Your task to perform on an android device: Clear all items from cart on walmart.com. Add "bose quietcomfort 35" to the cart on walmart.com Image 0: 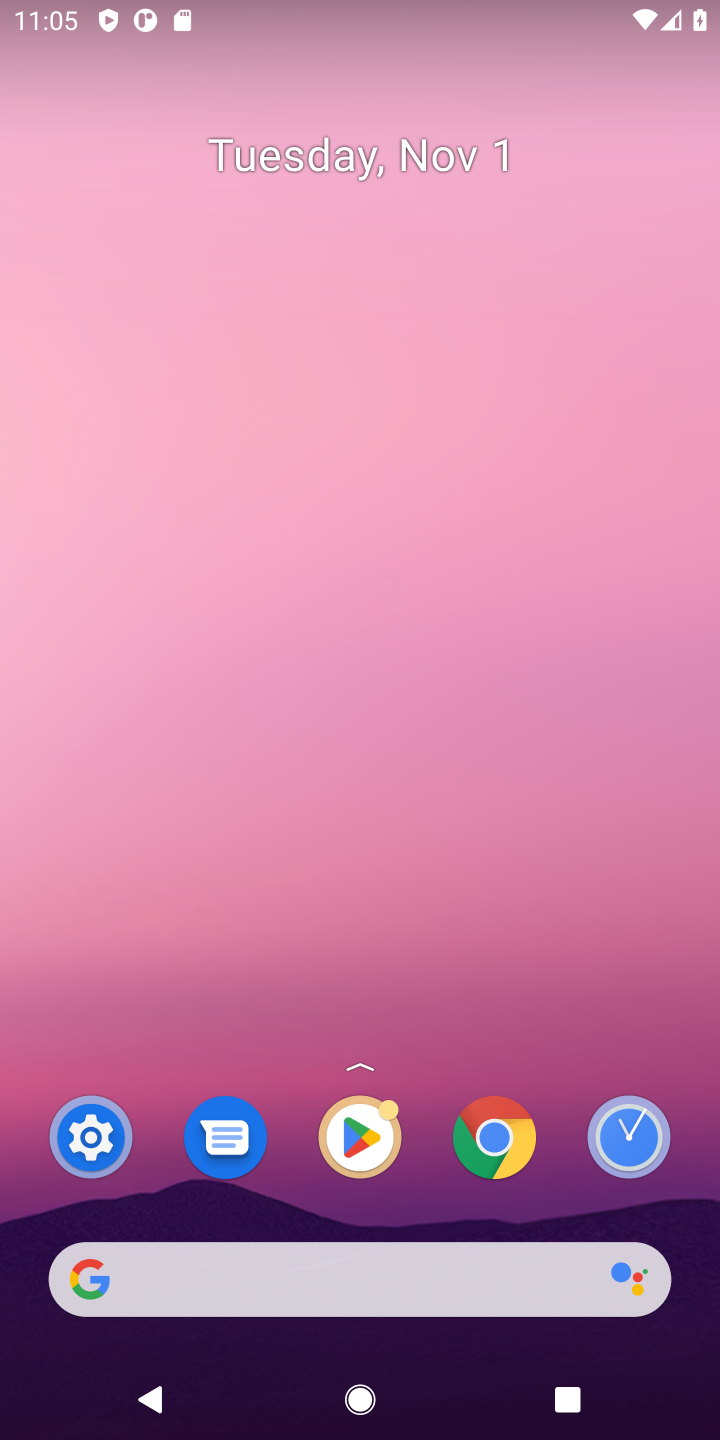
Step 0: click (176, 1259)
Your task to perform on an android device: Clear all items from cart on walmart.com. Add "bose quietcomfort 35" to the cart on walmart.com Image 1: 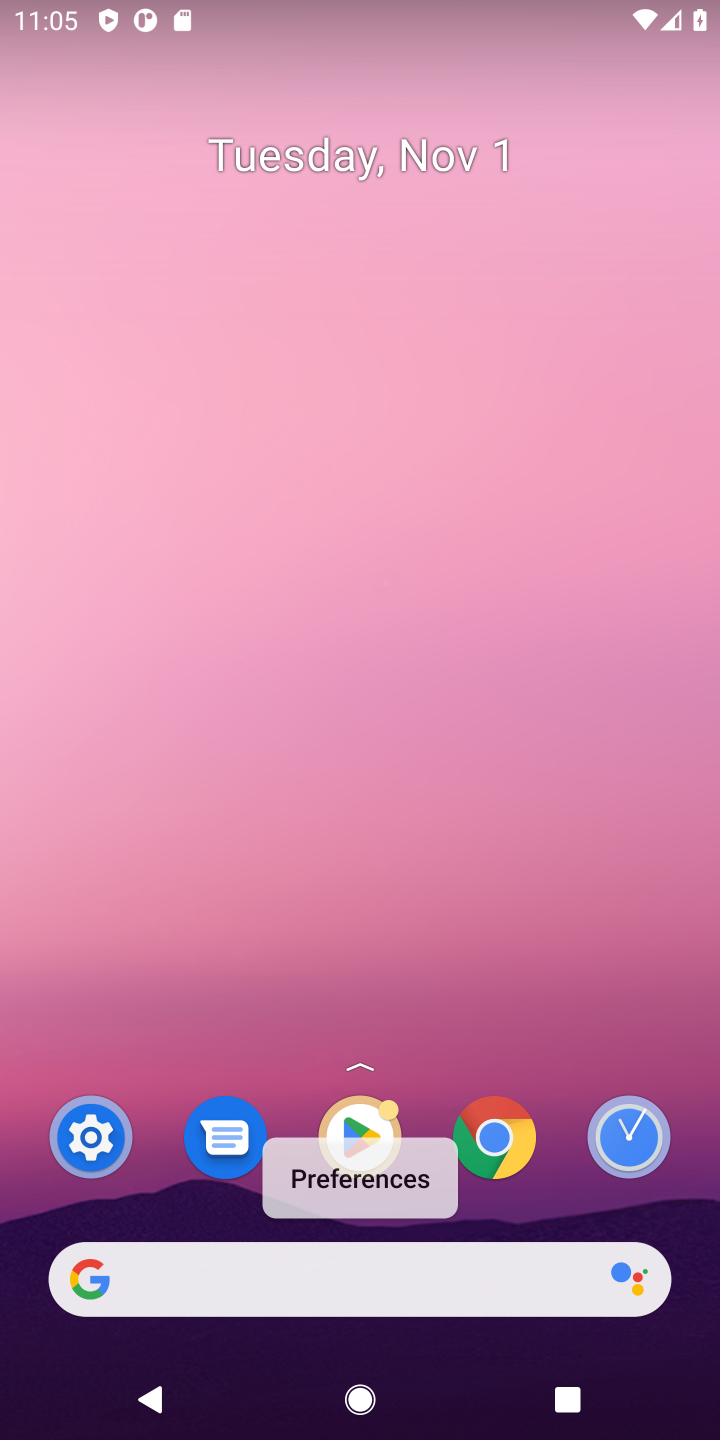
Step 1: click (183, 1259)
Your task to perform on an android device: Clear all items from cart on walmart.com. Add "bose quietcomfort 35" to the cart on walmart.com Image 2: 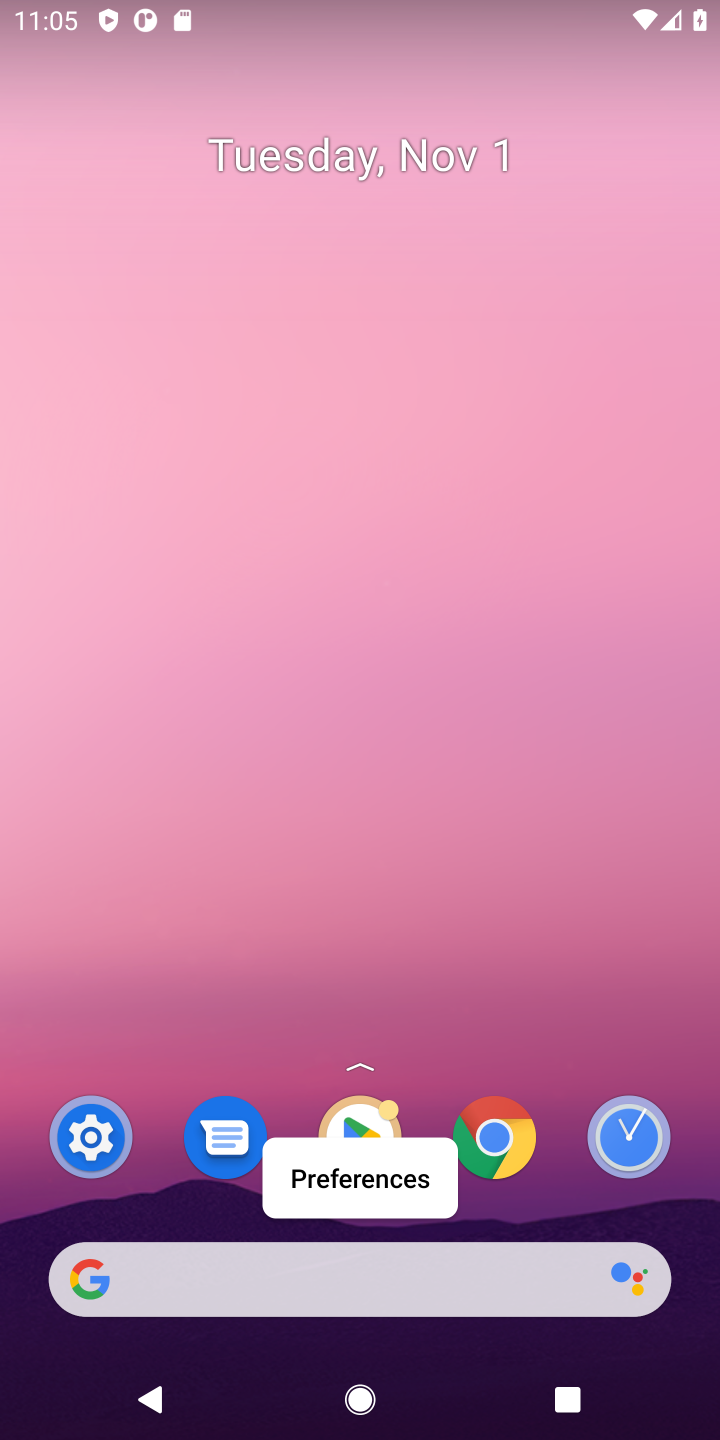
Step 2: click (185, 1257)
Your task to perform on an android device: Clear all items from cart on walmart.com. Add "bose quietcomfort 35" to the cart on walmart.com Image 3: 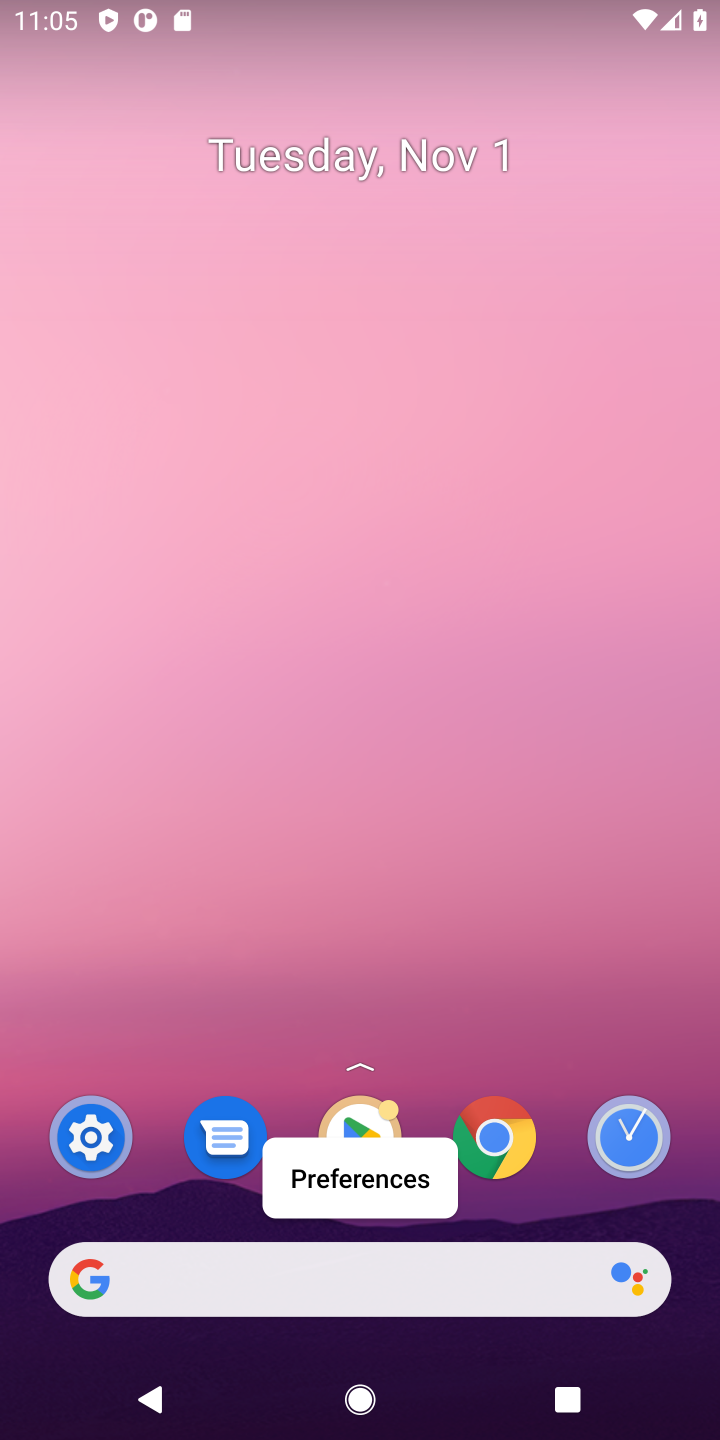
Step 3: click (192, 1272)
Your task to perform on an android device: Clear all items from cart on walmart.com. Add "bose quietcomfort 35" to the cart on walmart.com Image 4: 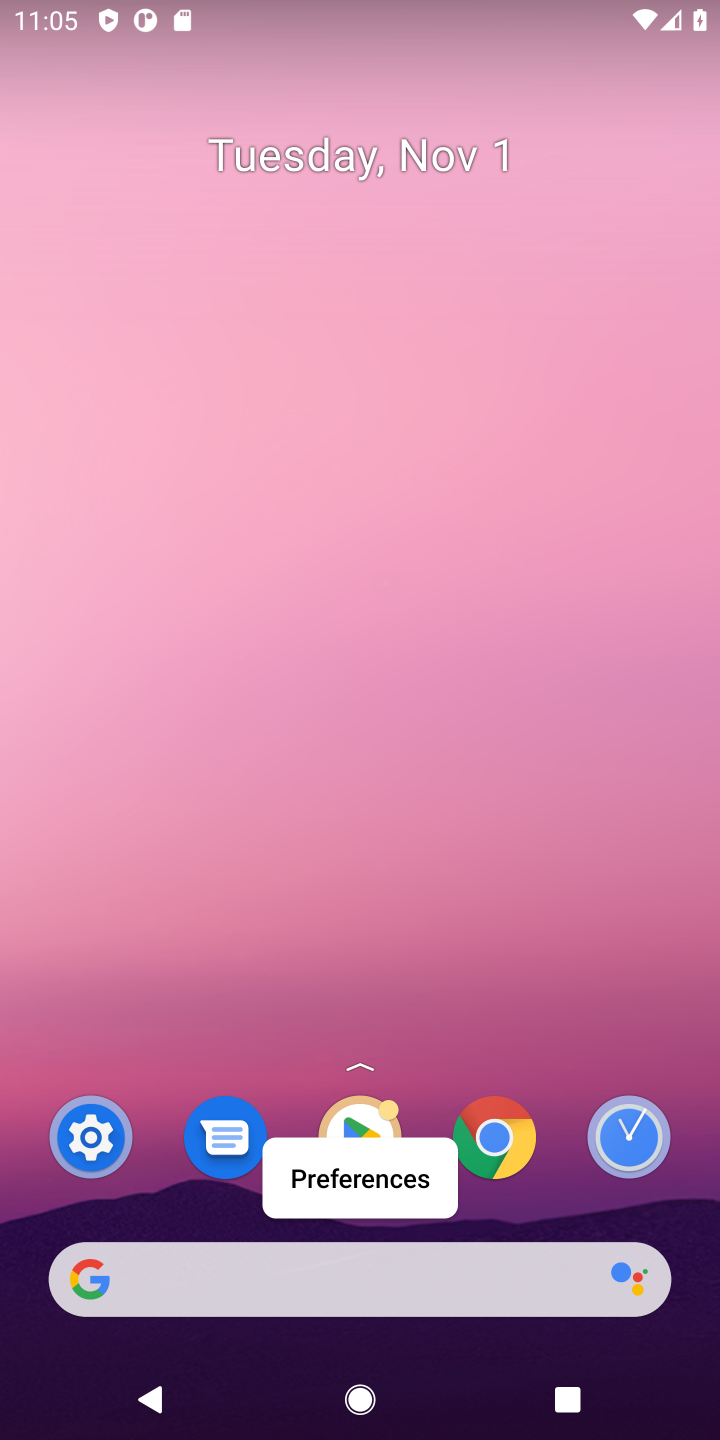
Step 4: click (194, 1270)
Your task to perform on an android device: Clear all items from cart on walmart.com. Add "bose quietcomfort 35" to the cart on walmart.com Image 5: 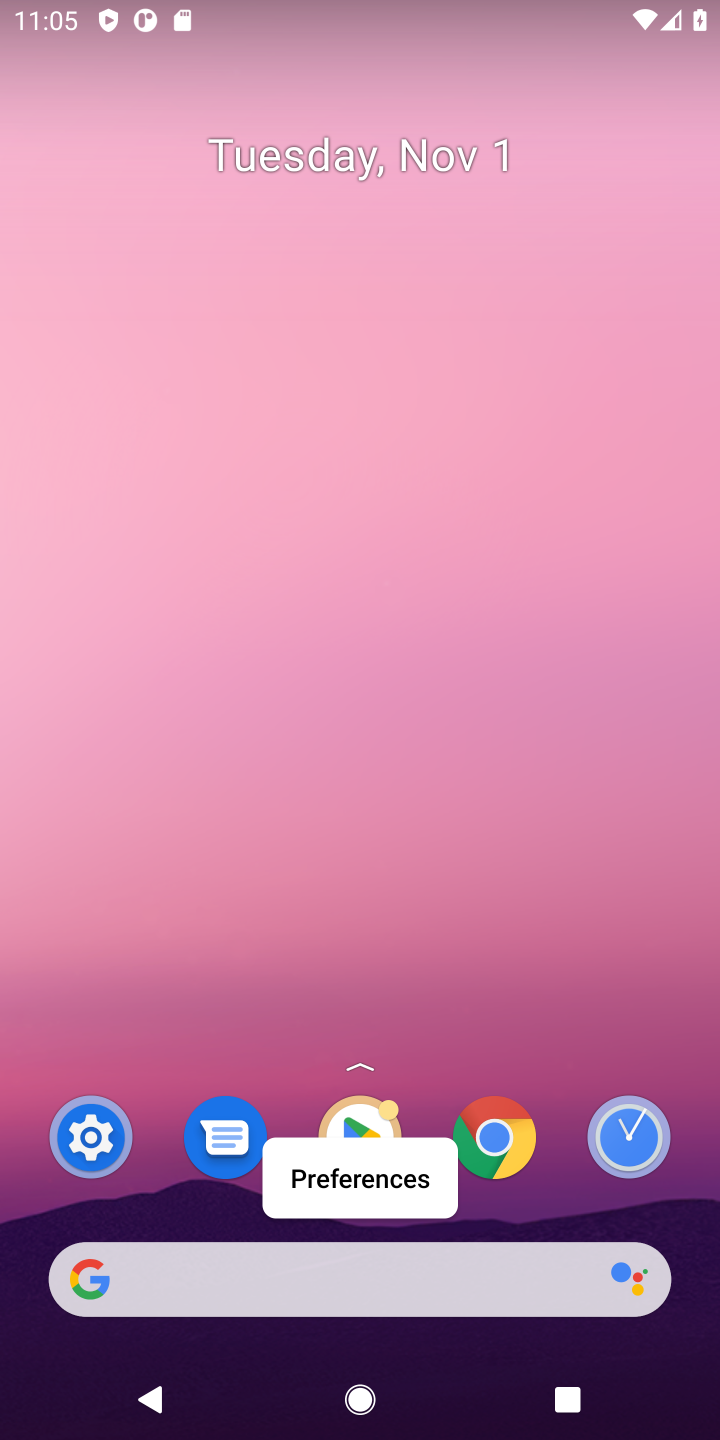
Step 5: click (194, 1277)
Your task to perform on an android device: Clear all items from cart on walmart.com. Add "bose quietcomfort 35" to the cart on walmart.com Image 6: 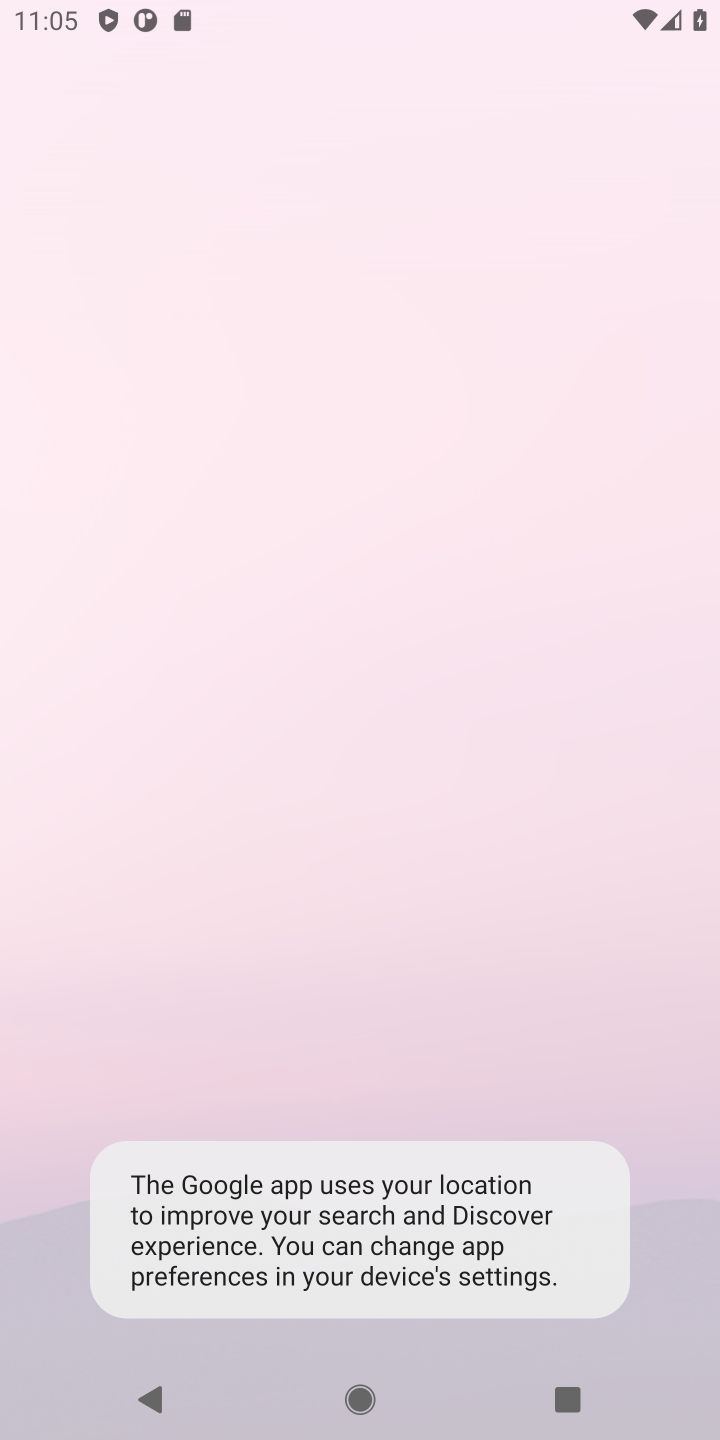
Step 6: click (192, 1277)
Your task to perform on an android device: Clear all items from cart on walmart.com. Add "bose quietcomfort 35" to the cart on walmart.com Image 7: 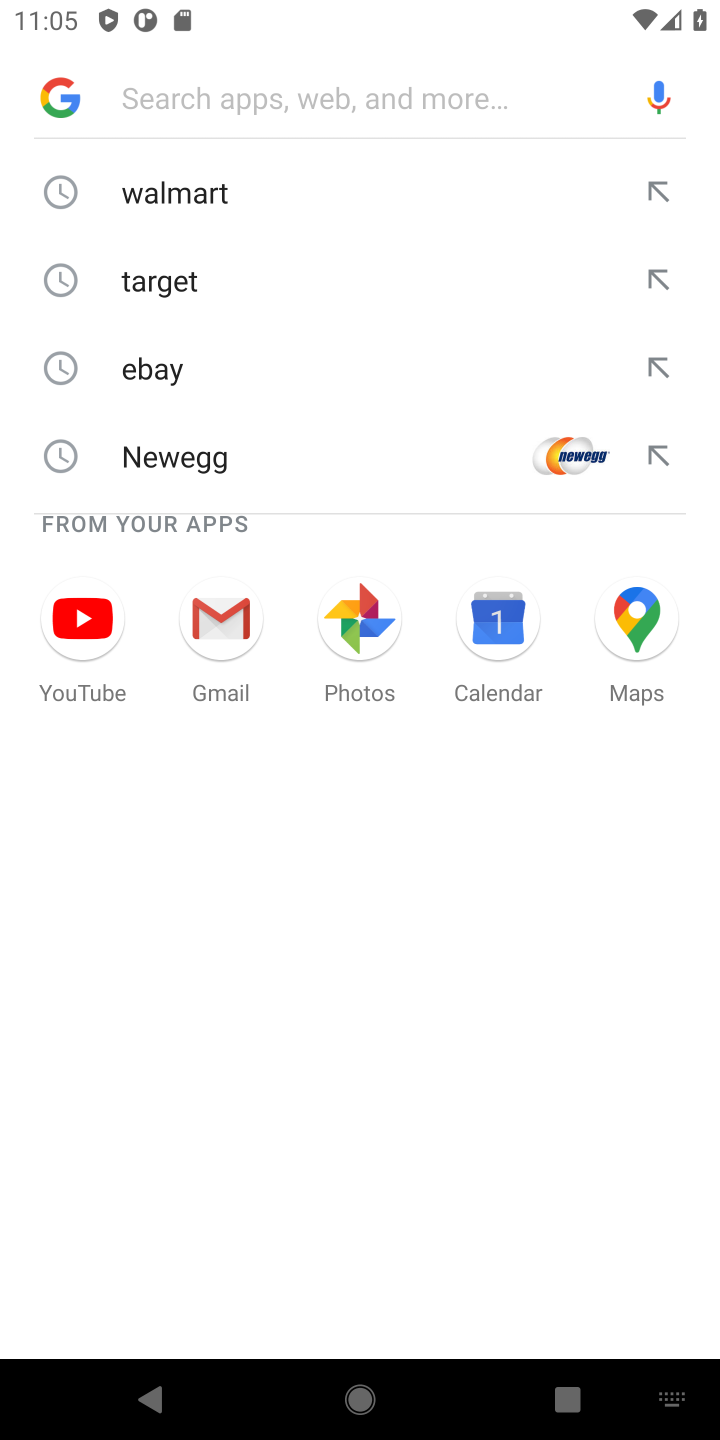
Step 7: type "walmart.com"
Your task to perform on an android device: Clear all items from cart on walmart.com. Add "bose quietcomfort 35" to the cart on walmart.com Image 8: 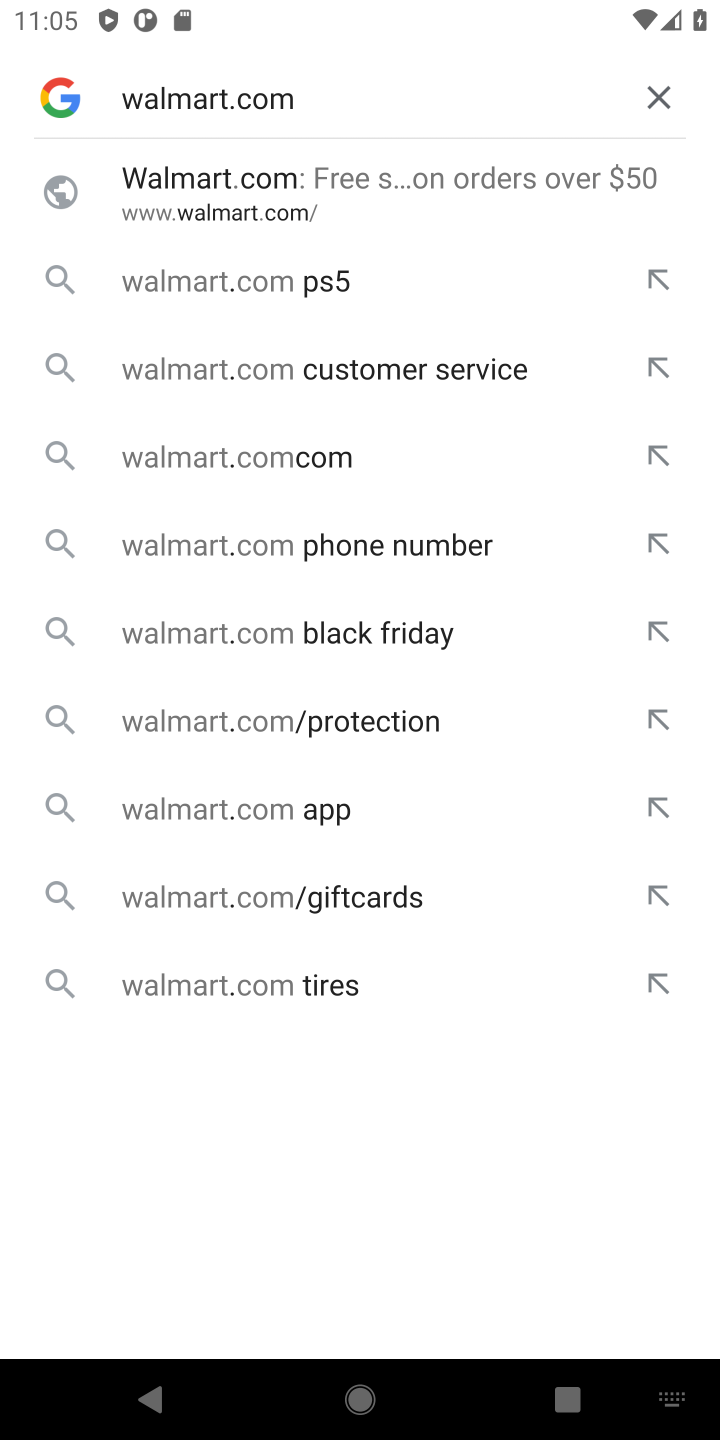
Step 8: type ""
Your task to perform on an android device: Clear all items from cart on walmart.com. Add "bose quietcomfort 35" to the cart on walmart.com Image 9: 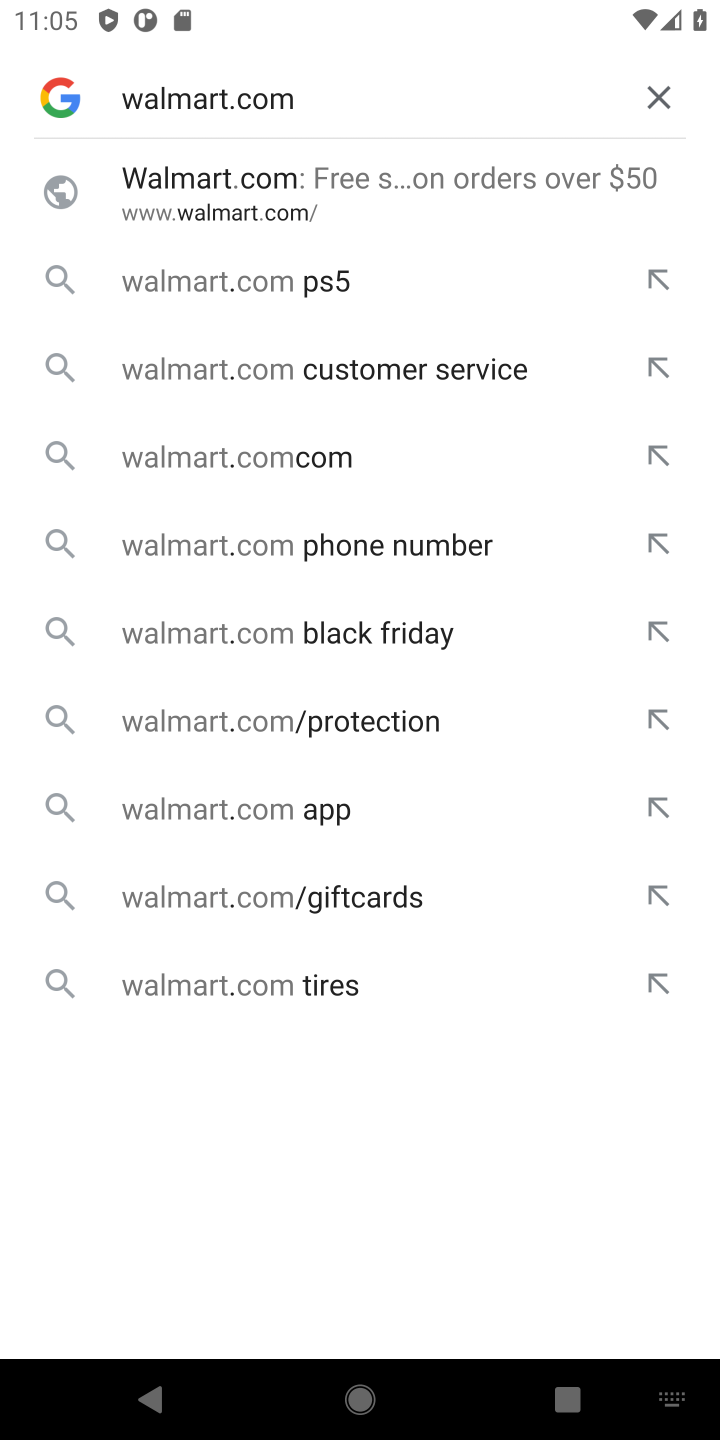
Step 9: press enter
Your task to perform on an android device: Clear all items from cart on walmart.com. Add "bose quietcomfort 35" to the cart on walmart.com Image 10: 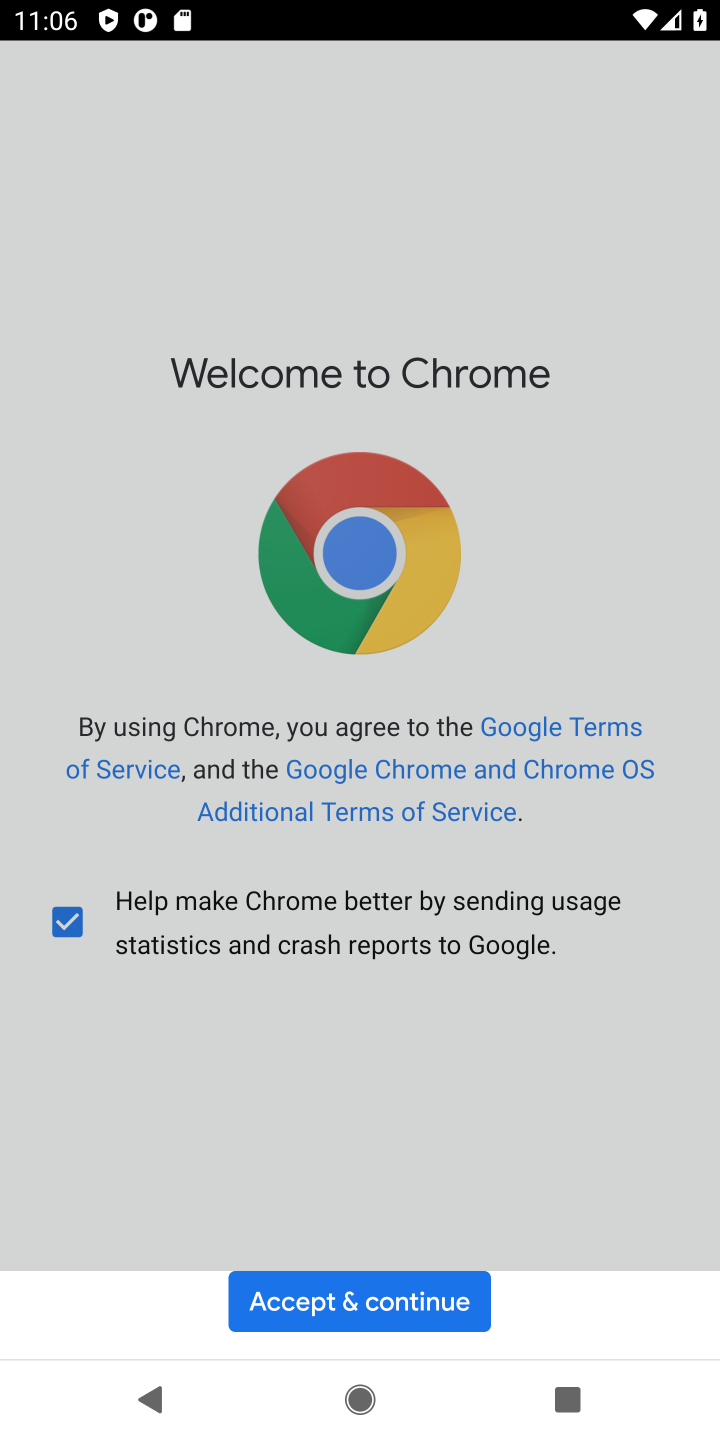
Step 10: click (322, 1291)
Your task to perform on an android device: Clear all items from cart on walmart.com. Add "bose quietcomfort 35" to the cart on walmart.com Image 11: 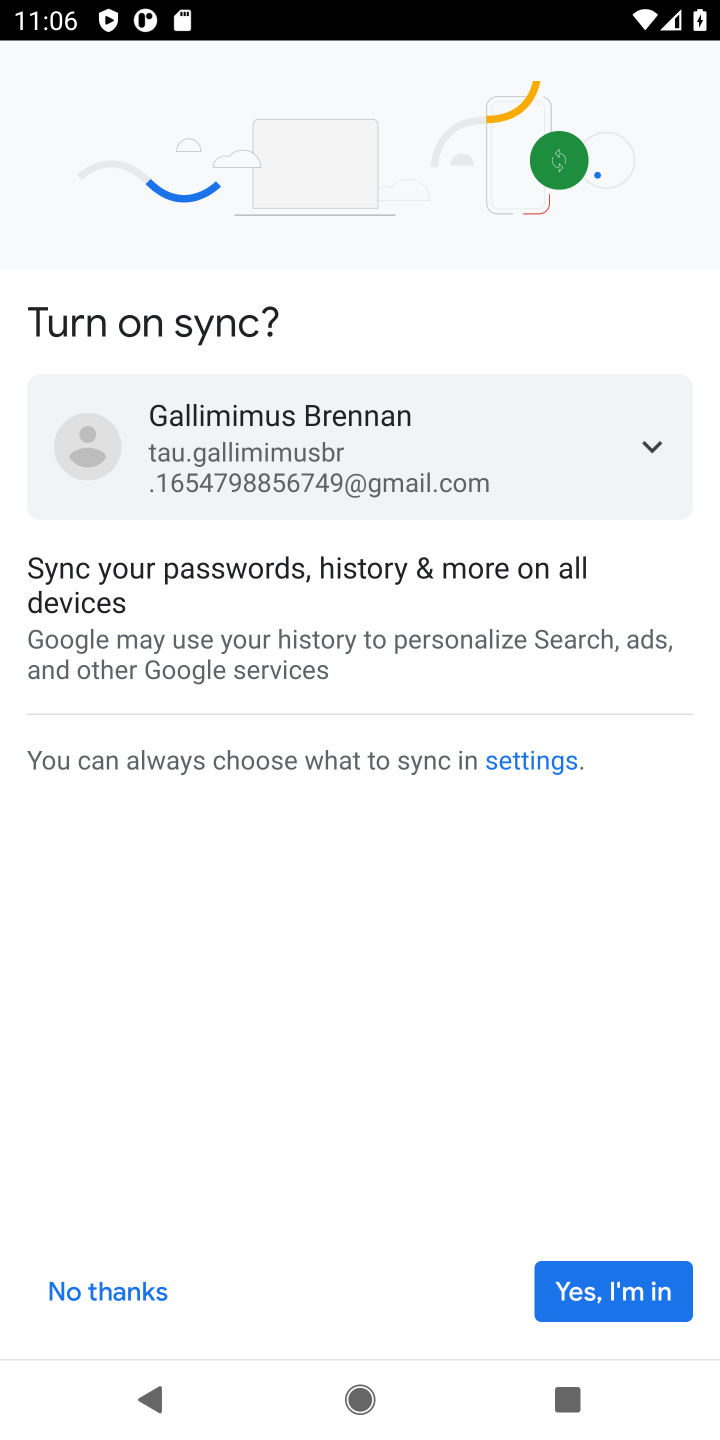
Step 11: click (599, 1293)
Your task to perform on an android device: Clear all items from cart on walmart.com. Add "bose quietcomfort 35" to the cart on walmart.com Image 12: 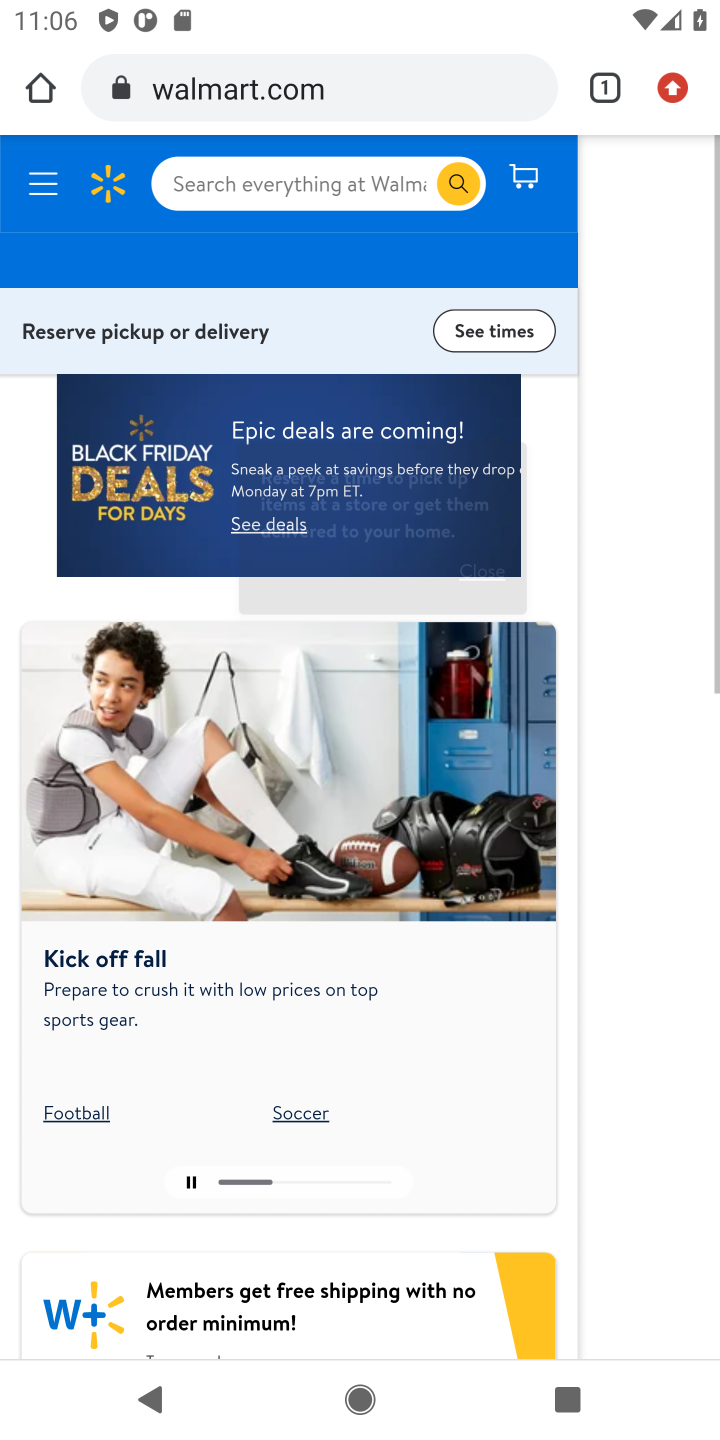
Step 12: click (325, 204)
Your task to perform on an android device: Clear all items from cart on walmart.com. Add "bose quietcomfort 35" to the cart on walmart.com Image 13: 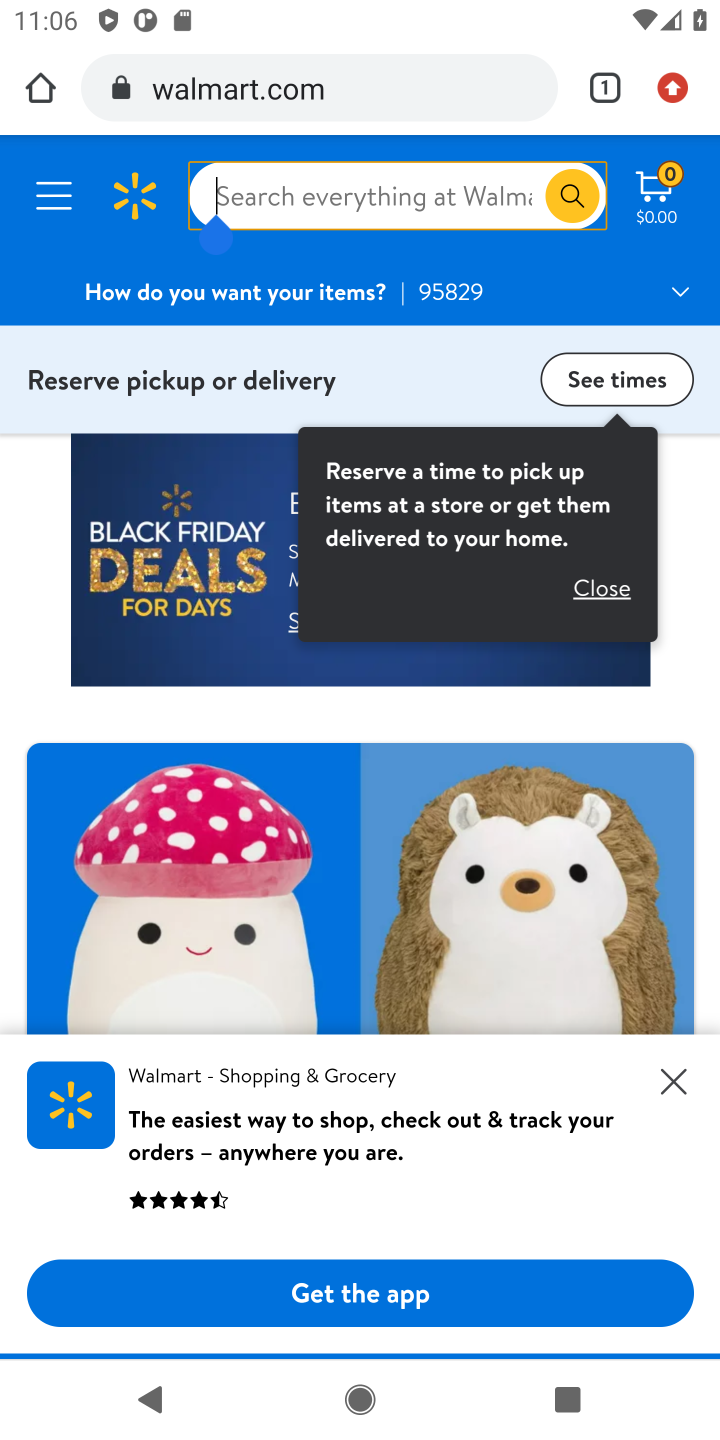
Step 13: click (328, 191)
Your task to perform on an android device: Clear all items from cart on walmart.com. Add "bose quietcomfort 35" to the cart on walmart.com Image 14: 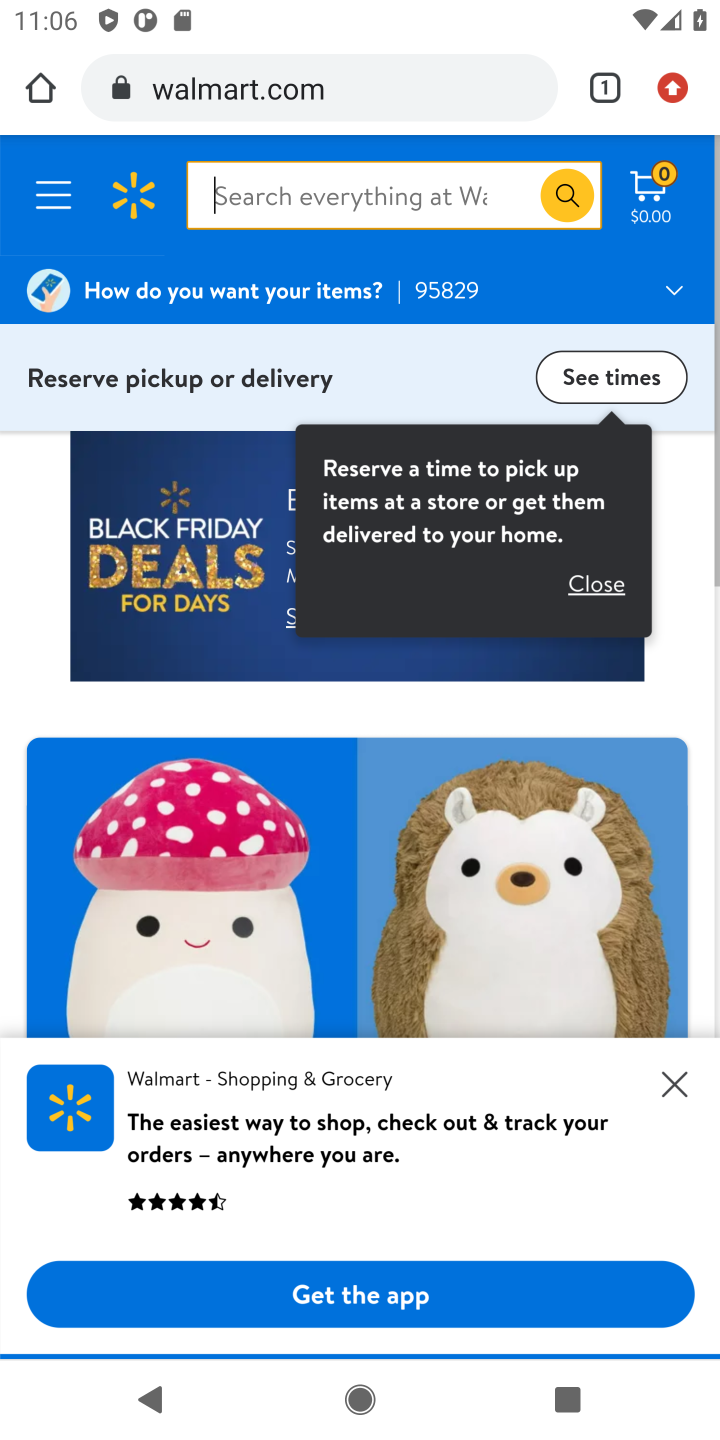
Step 14: click (328, 191)
Your task to perform on an android device: Clear all items from cart on walmart.com. Add "bose quietcomfort 35" to the cart on walmart.com Image 15: 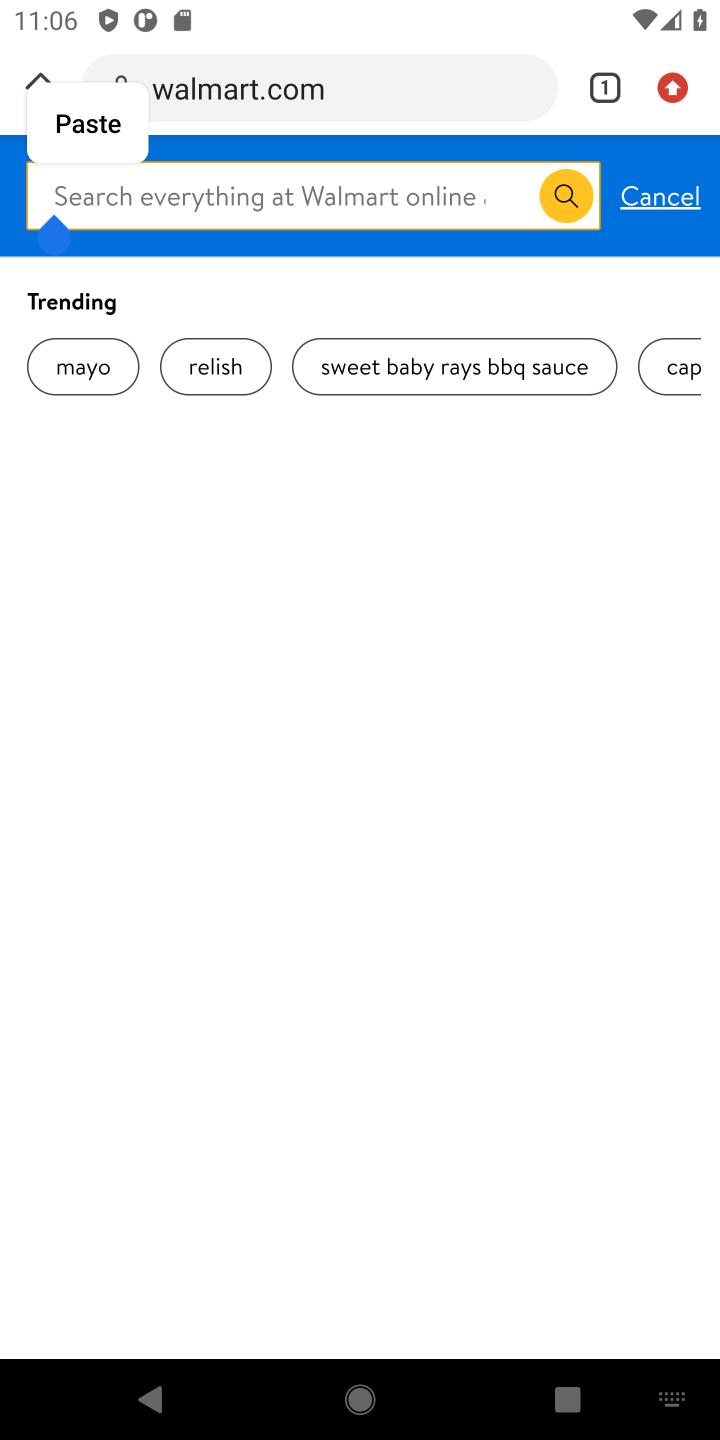
Step 15: click (246, 215)
Your task to perform on an android device: Clear all items from cart on walmart.com. Add "bose quietcomfort 35" to the cart on walmart.com Image 16: 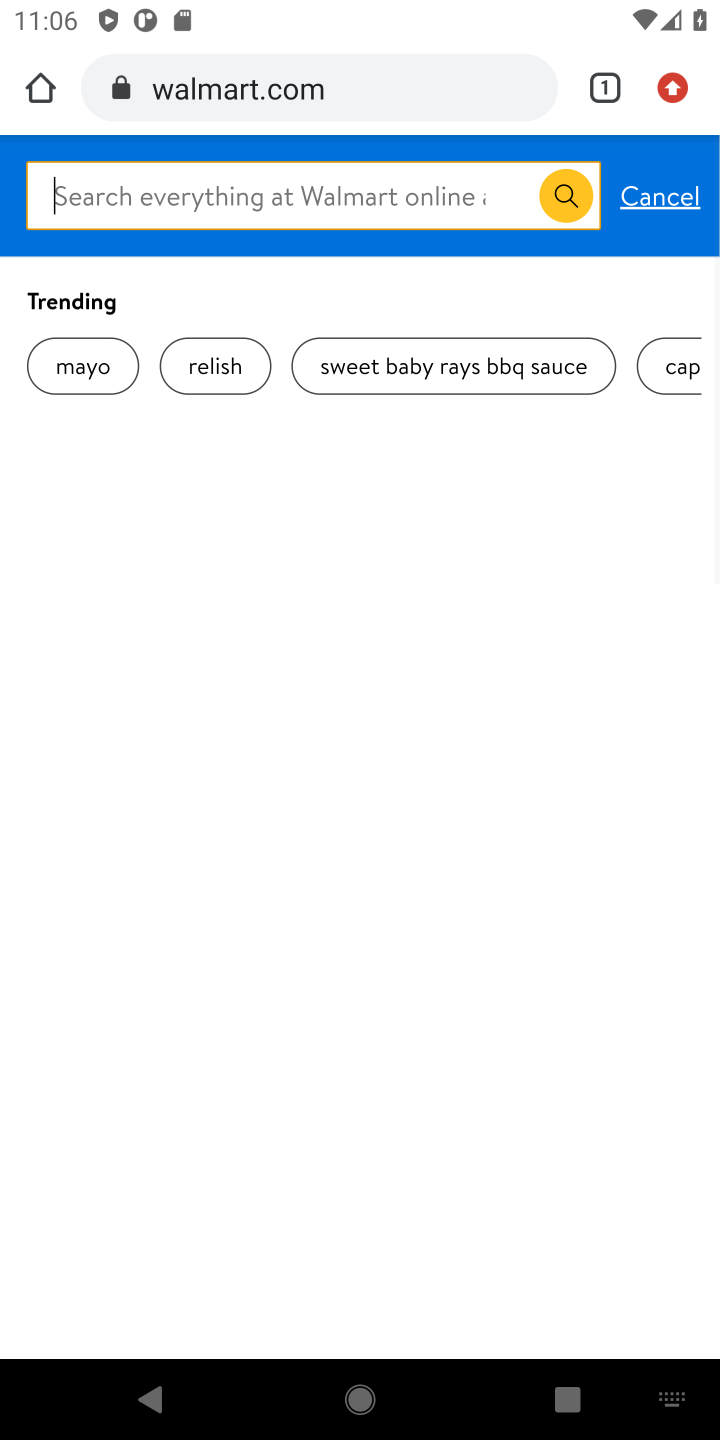
Step 16: click (156, 177)
Your task to perform on an android device: Clear all items from cart on walmart.com. Add "bose quietcomfort 35" to the cart on walmart.com Image 17: 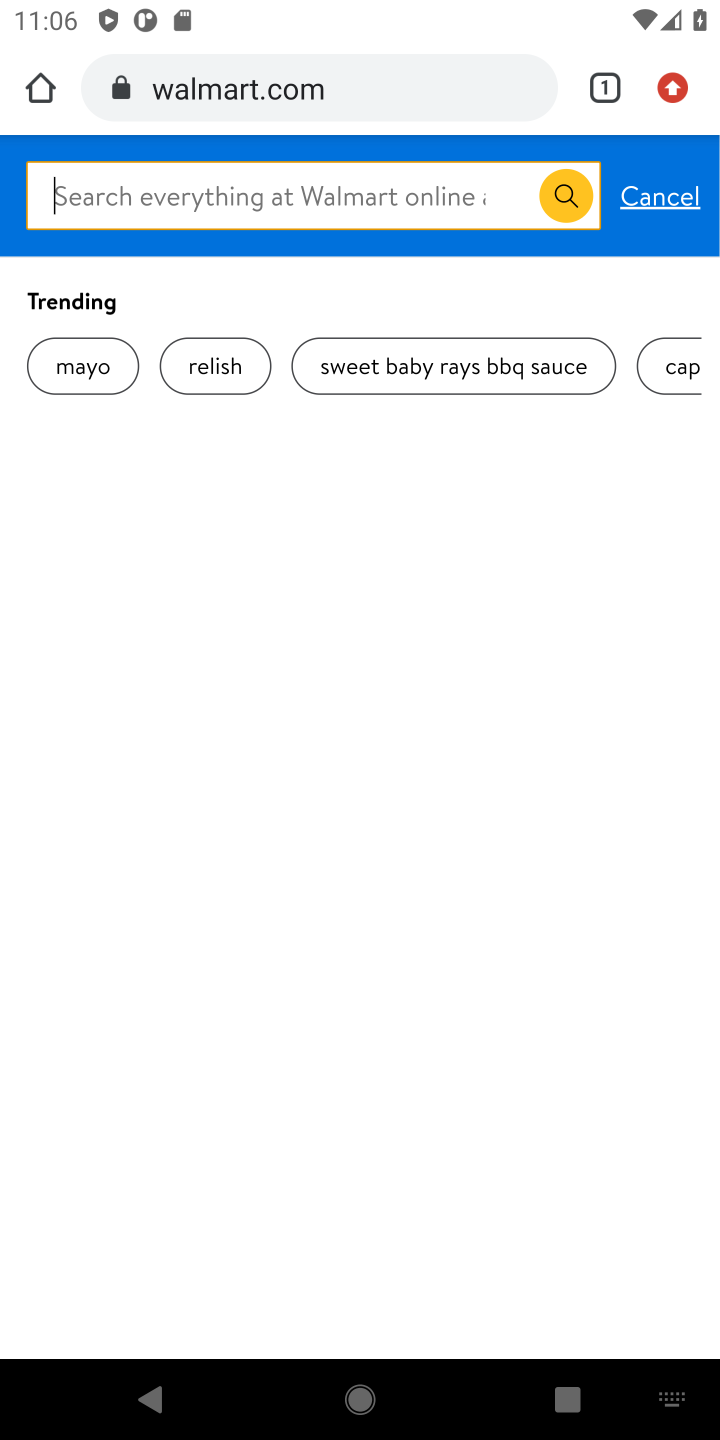
Step 17: click (174, 188)
Your task to perform on an android device: Clear all items from cart on walmart.com. Add "bose quietcomfort 35" to the cart on walmart.com Image 18: 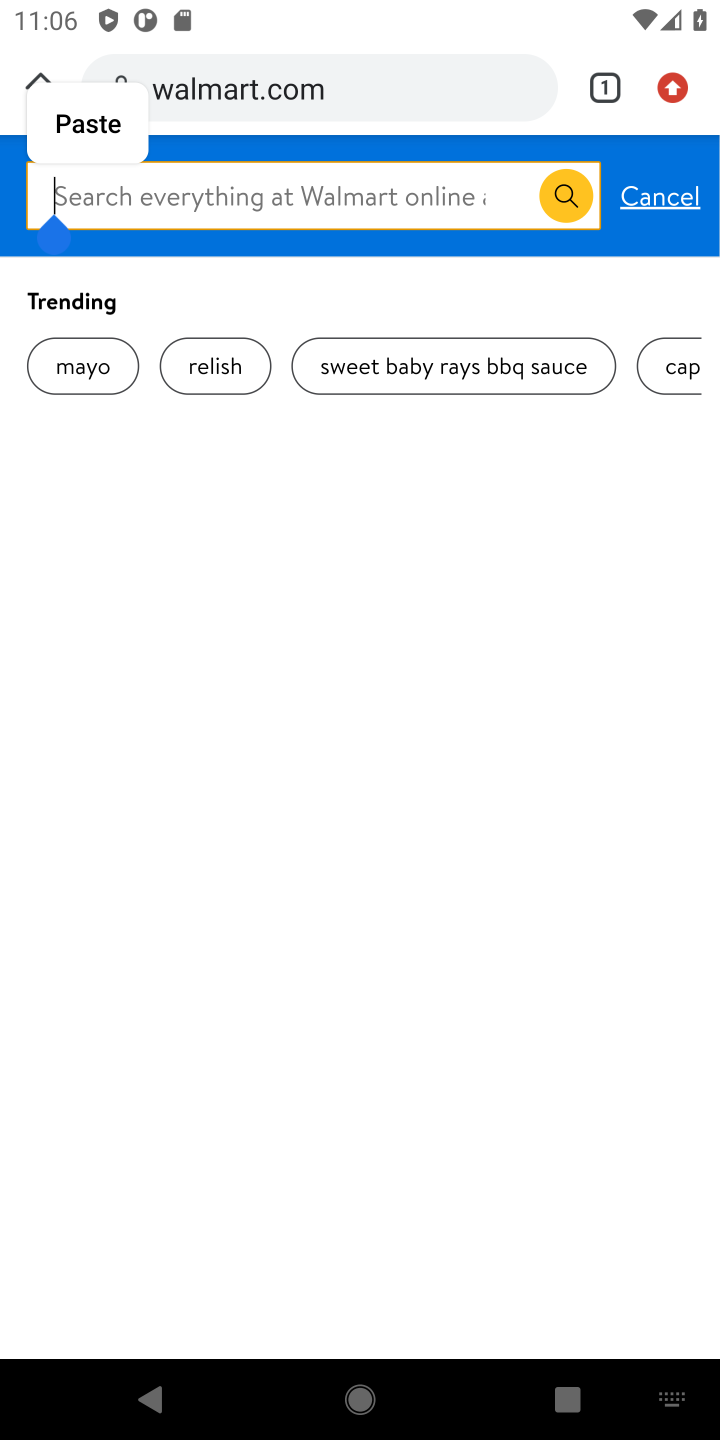
Step 18: type "bose quietcomfort 35"
Your task to perform on an android device: Clear all items from cart on walmart.com. Add "bose quietcomfort 35" to the cart on walmart.com Image 19: 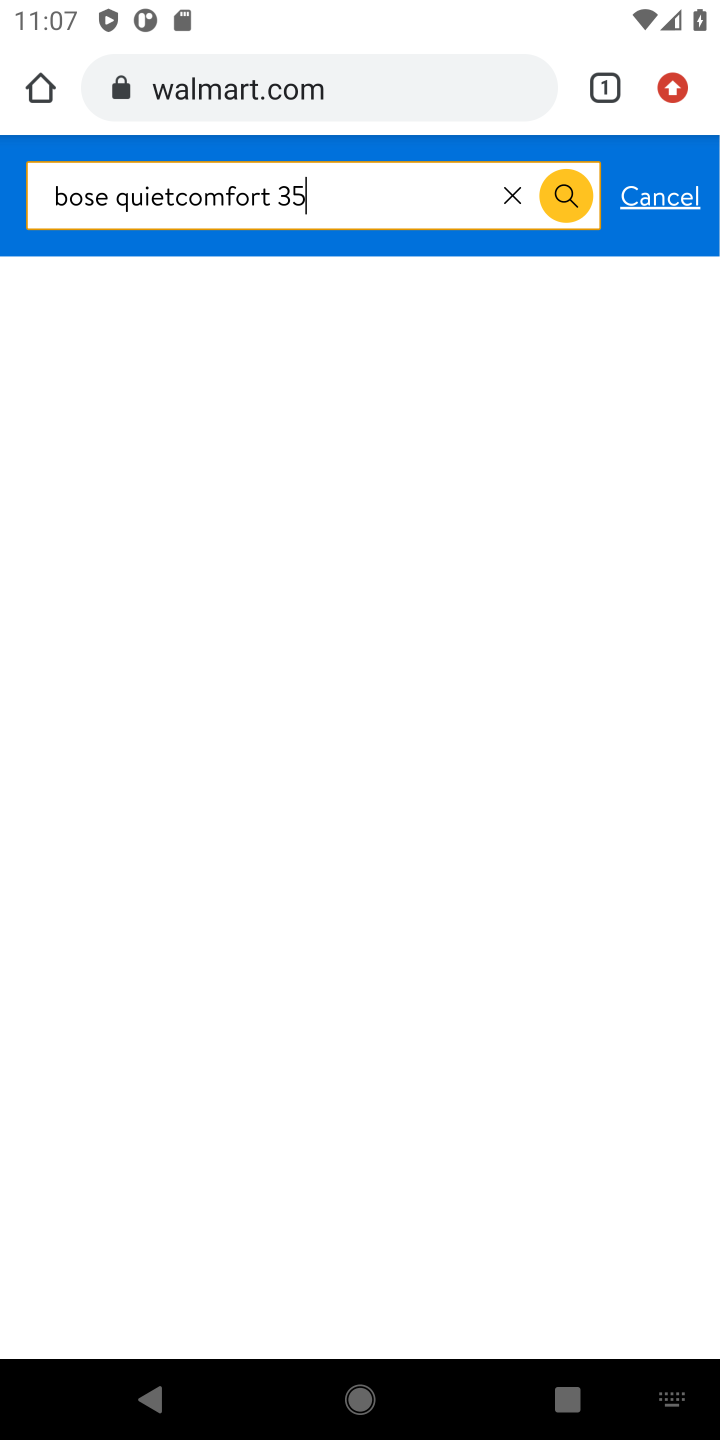
Step 19: press enter
Your task to perform on an android device: Clear all items from cart on walmart.com. Add "bose quietcomfort 35" to the cart on walmart.com Image 20: 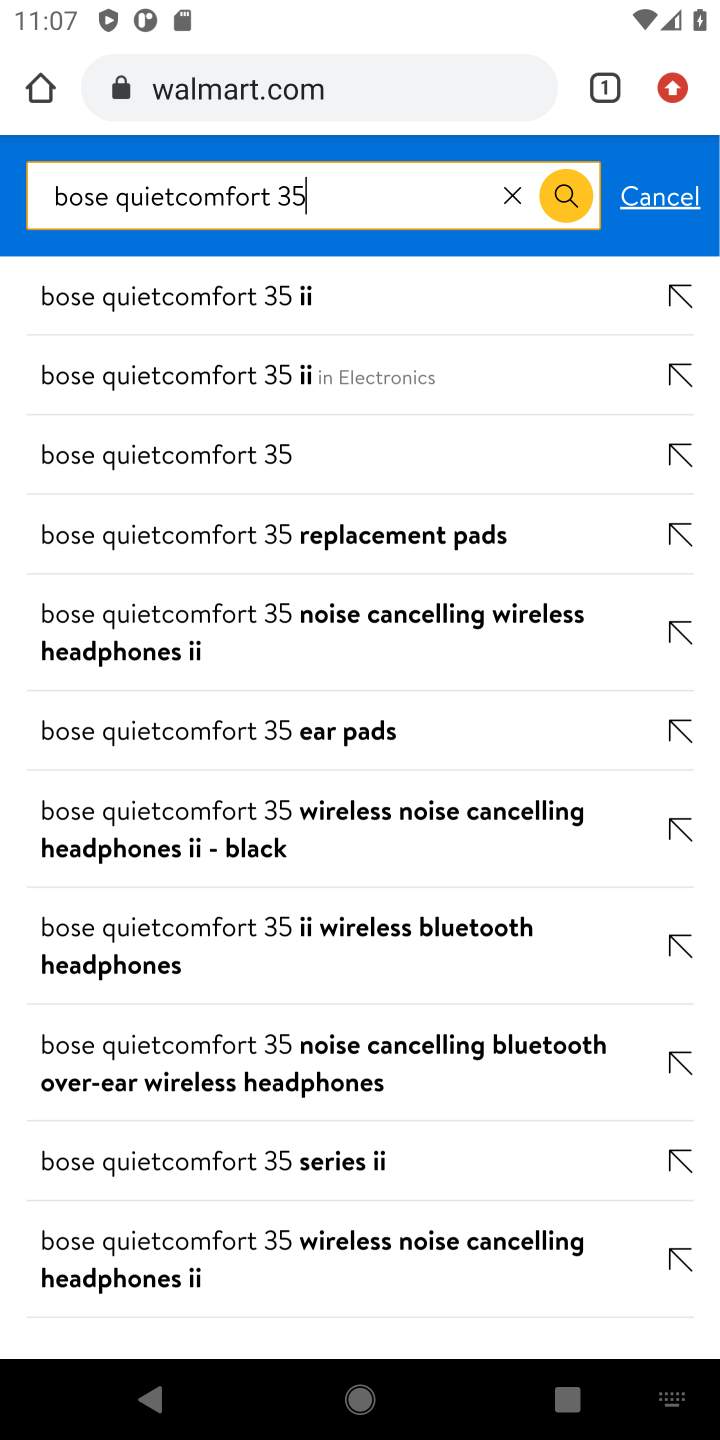
Step 20: type ""
Your task to perform on an android device: Clear all items from cart on walmart.com. Add "bose quietcomfort 35" to the cart on walmart.com Image 21: 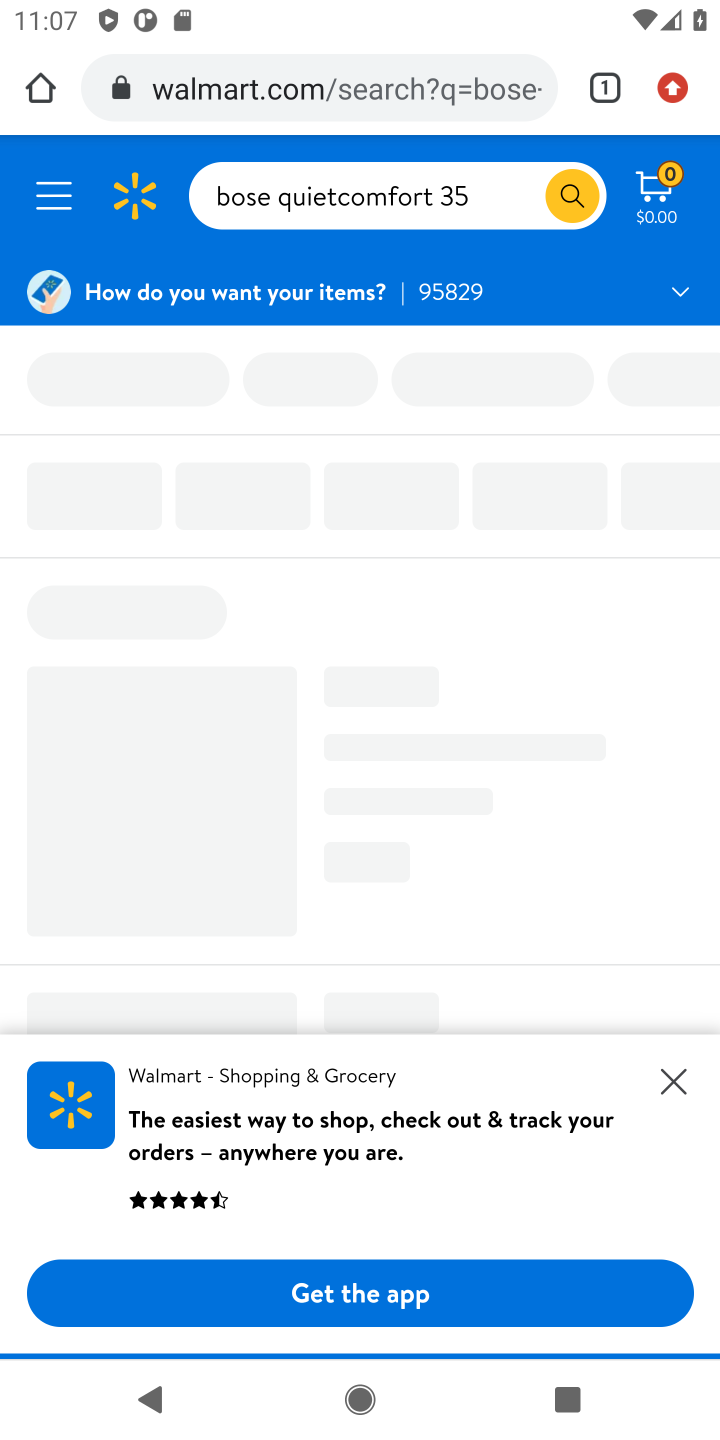
Step 21: press enter
Your task to perform on an android device: Clear all items from cart on walmart.com. Add "bose quietcomfort 35" to the cart on walmart.com Image 22: 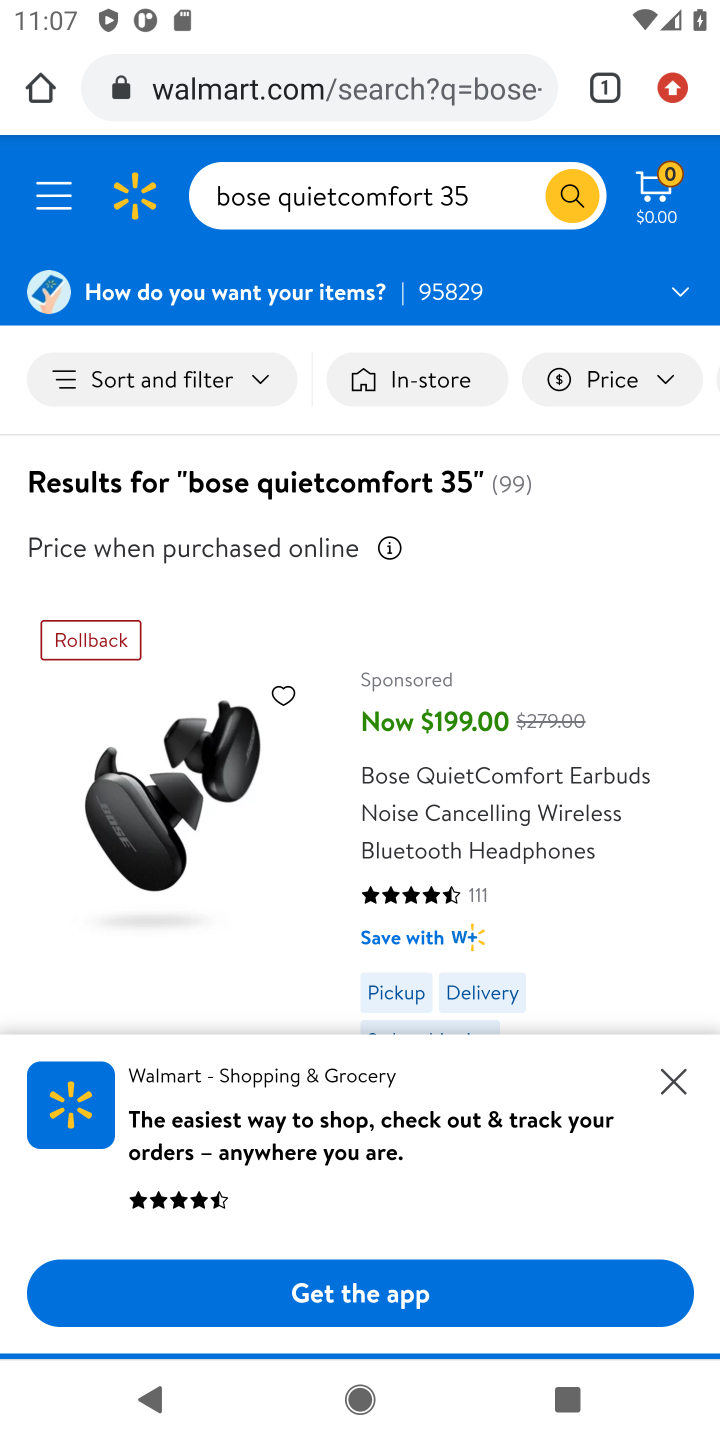
Step 22: click (680, 1081)
Your task to perform on an android device: Clear all items from cart on walmart.com. Add "bose quietcomfort 35" to the cart on walmart.com Image 23: 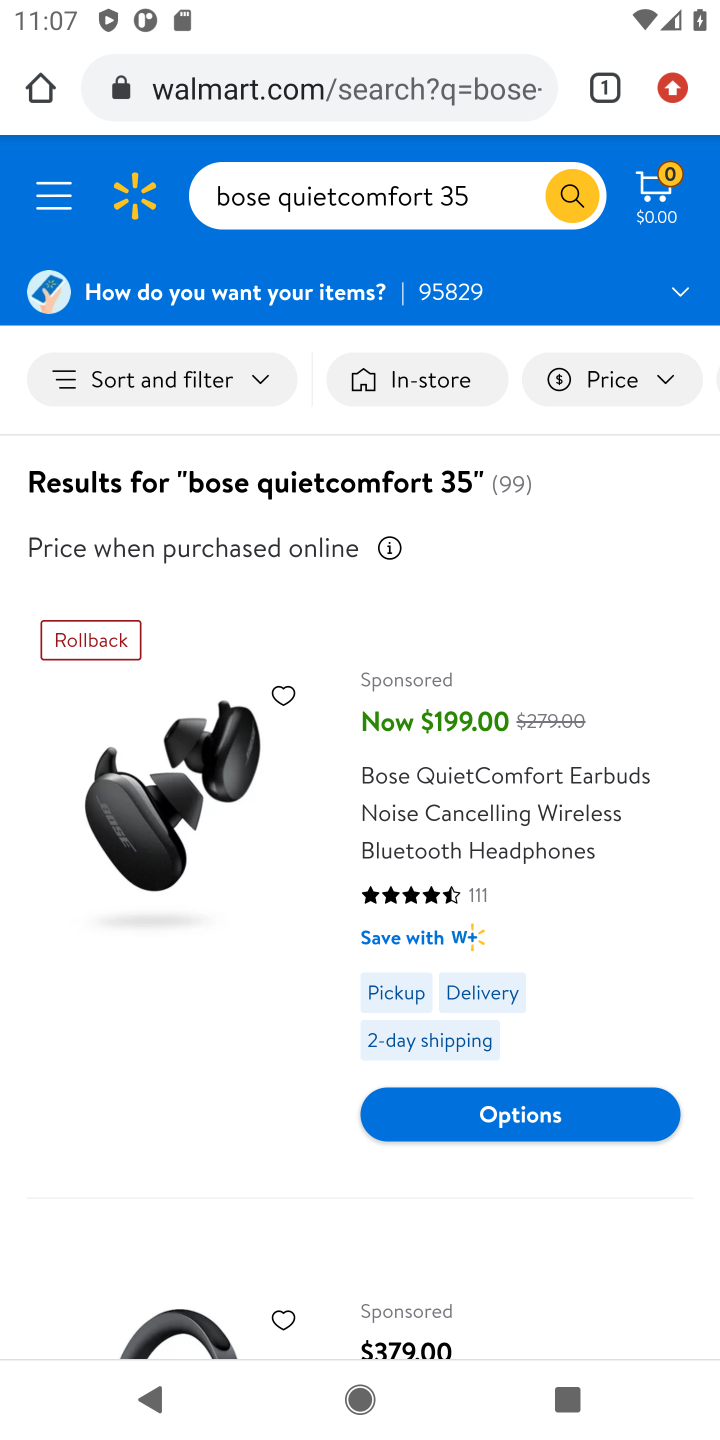
Step 23: click (665, 1076)
Your task to perform on an android device: Clear all items from cart on walmart.com. Add "bose quietcomfort 35" to the cart on walmart.com Image 24: 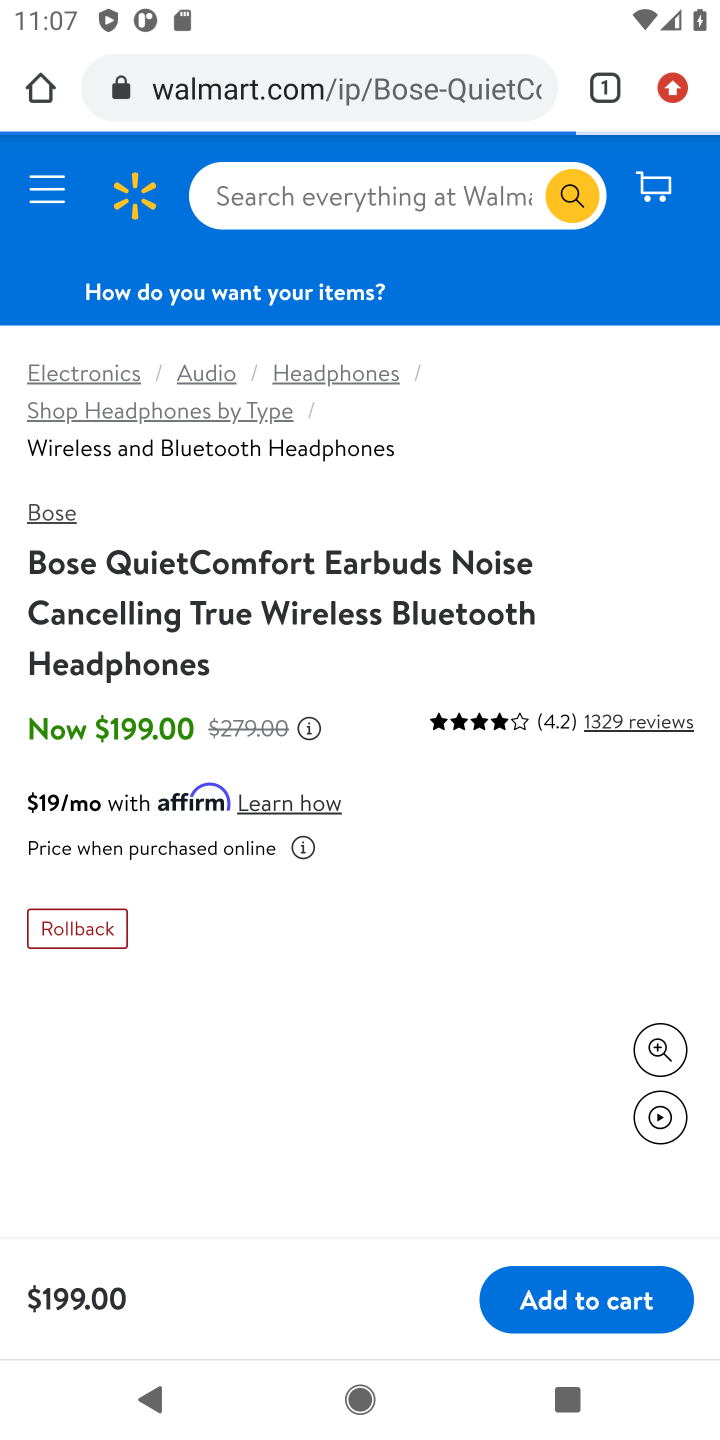
Step 24: click (526, 1105)
Your task to perform on an android device: Clear all items from cart on walmart.com. Add "bose quietcomfort 35" to the cart on walmart.com Image 25: 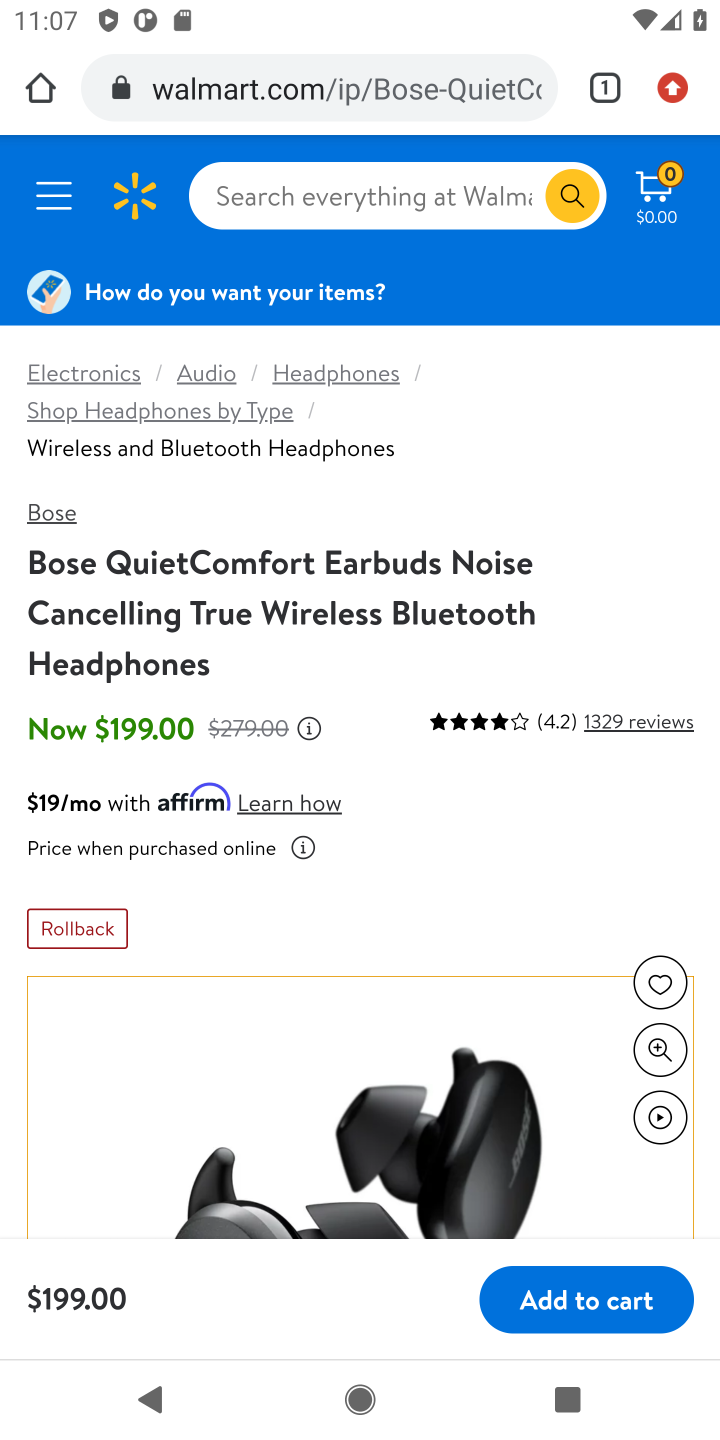
Step 25: click (627, 1273)
Your task to perform on an android device: Clear all items from cart on walmart.com. Add "bose quietcomfort 35" to the cart on walmart.com Image 26: 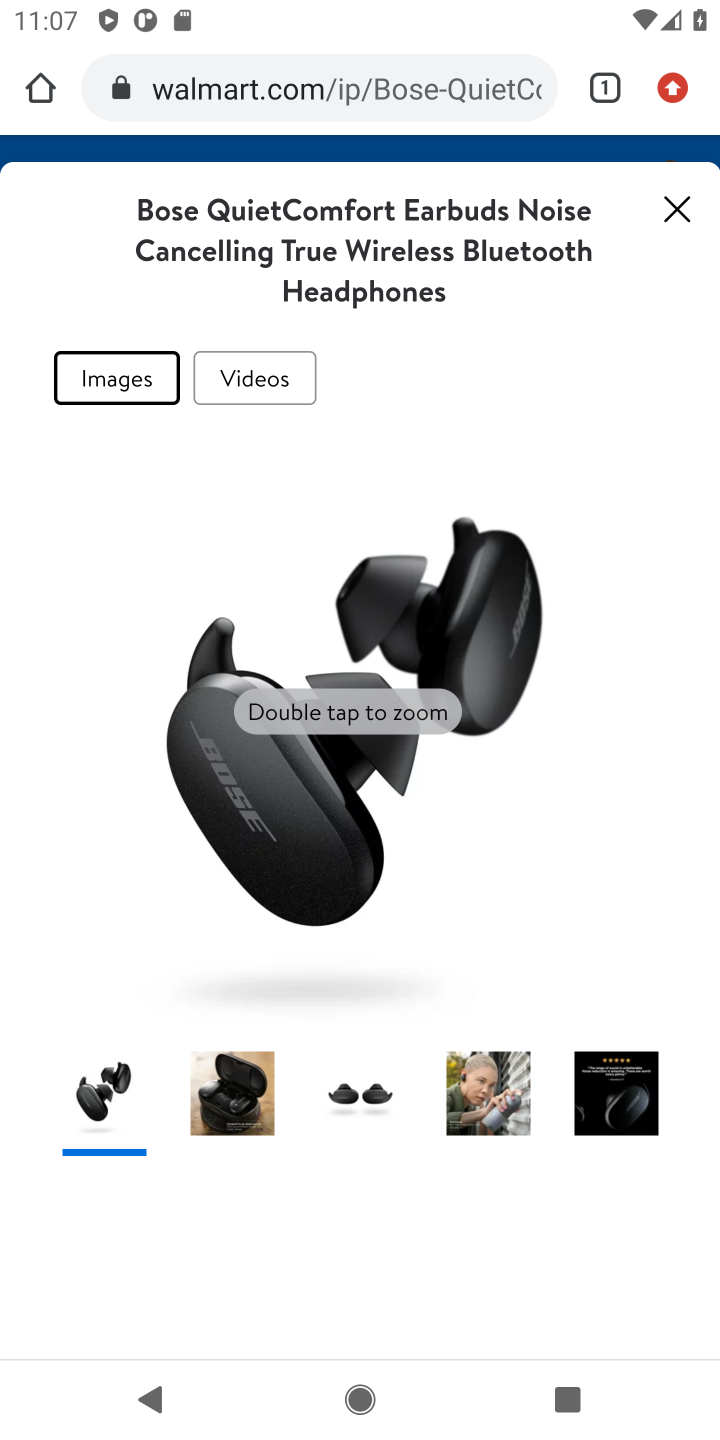
Step 26: drag from (621, 1103) to (485, 408)
Your task to perform on an android device: Clear all items from cart on walmart.com. Add "bose quietcomfort 35" to the cart on walmart.com Image 27: 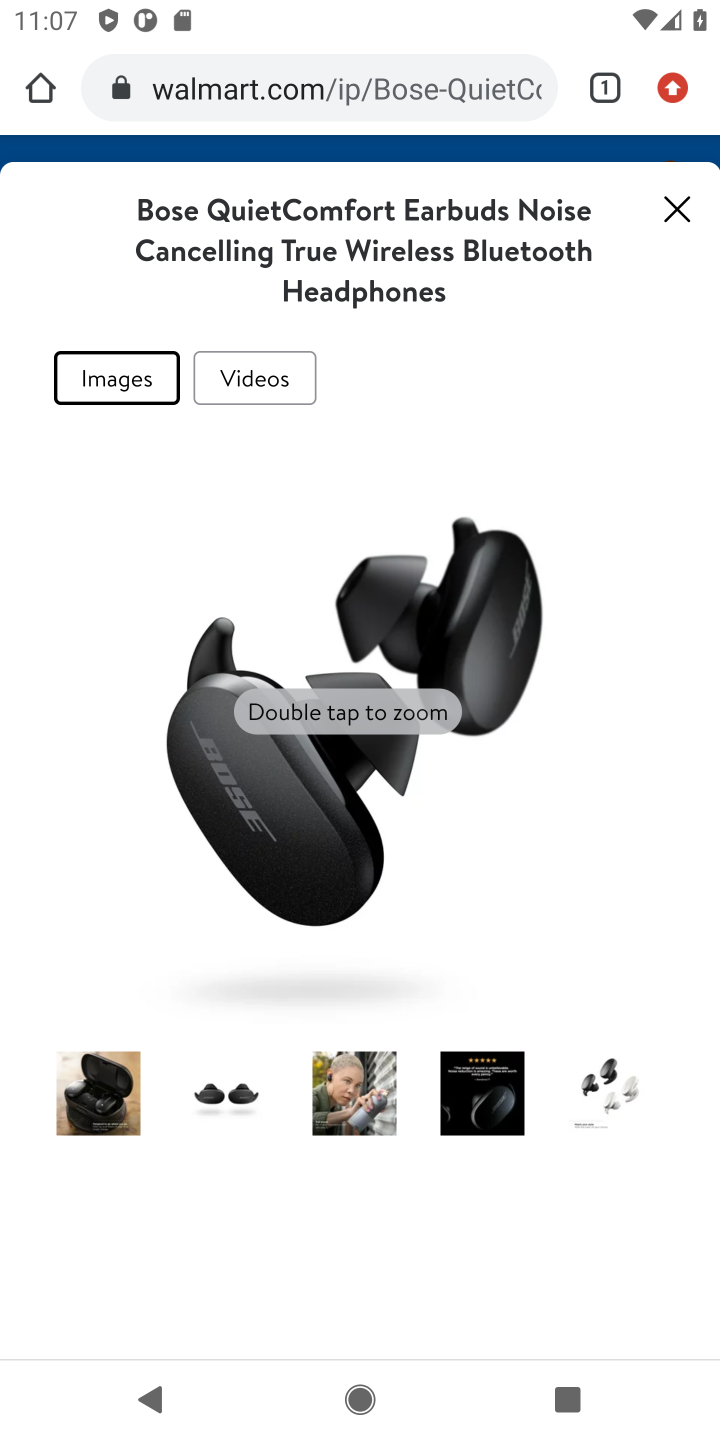
Step 27: drag from (499, 1252) to (516, 603)
Your task to perform on an android device: Clear all items from cart on walmart.com. Add "bose quietcomfort 35" to the cart on walmart.com Image 28: 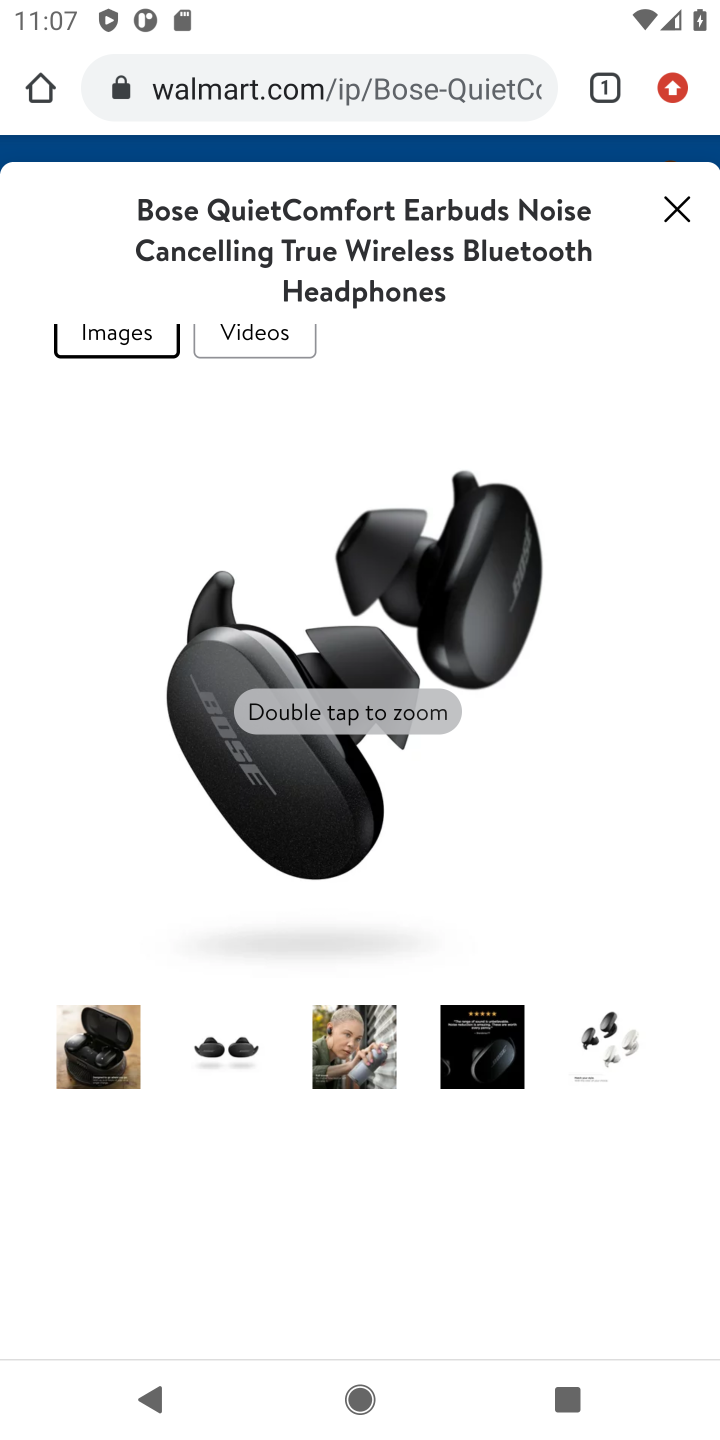
Step 28: click (679, 211)
Your task to perform on an android device: Clear all items from cart on walmart.com. Add "bose quietcomfort 35" to the cart on walmart.com Image 29: 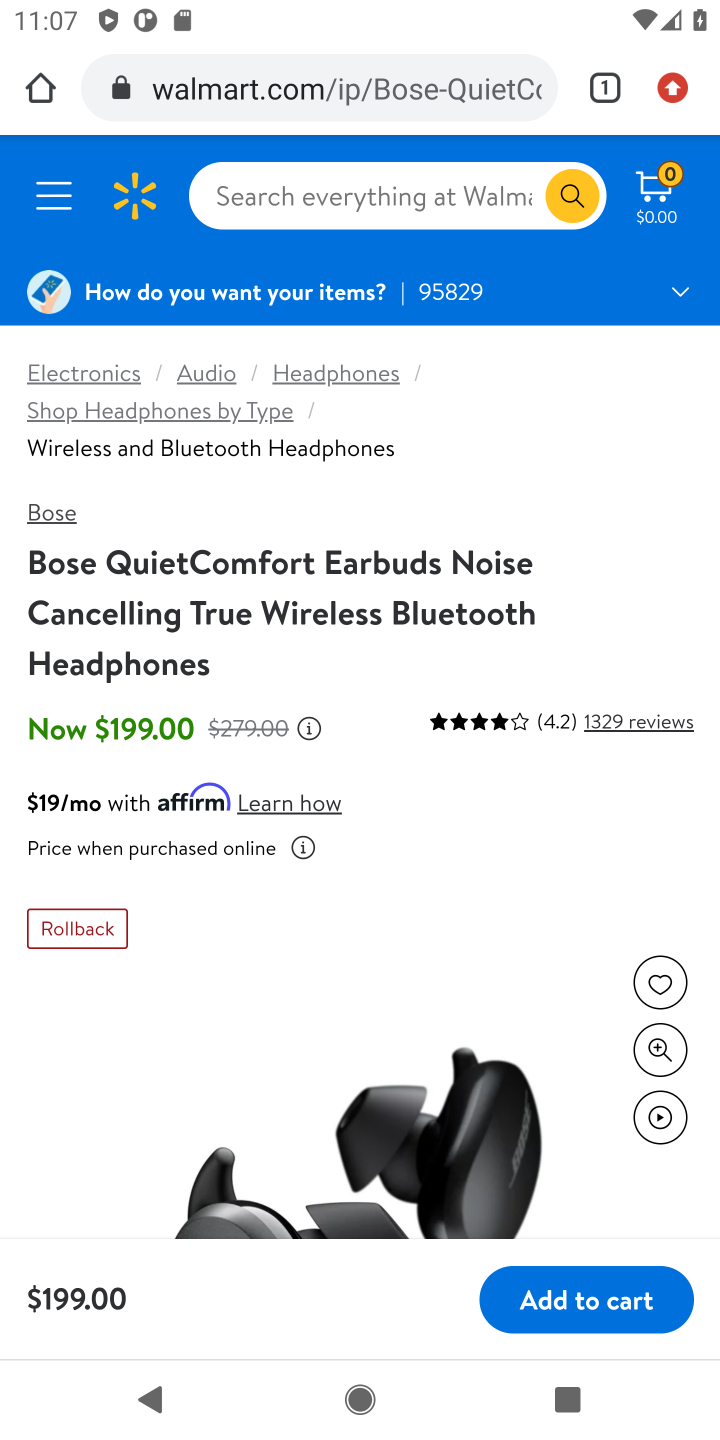
Step 29: drag from (555, 888) to (589, 478)
Your task to perform on an android device: Clear all items from cart on walmart.com. Add "bose quietcomfort 35" to the cart on walmart.com Image 30: 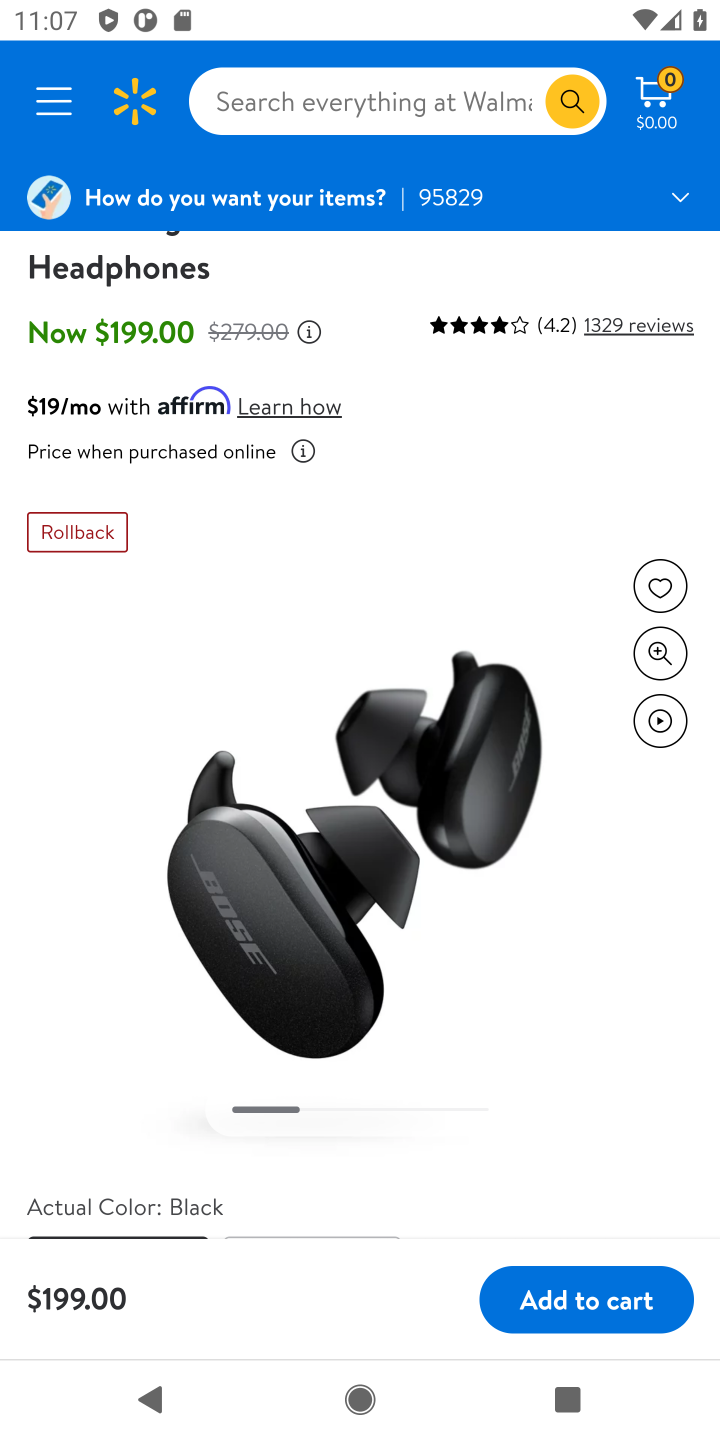
Step 30: click (635, 1316)
Your task to perform on an android device: Clear all items from cart on walmart.com. Add "bose quietcomfort 35" to the cart on walmart.com Image 31: 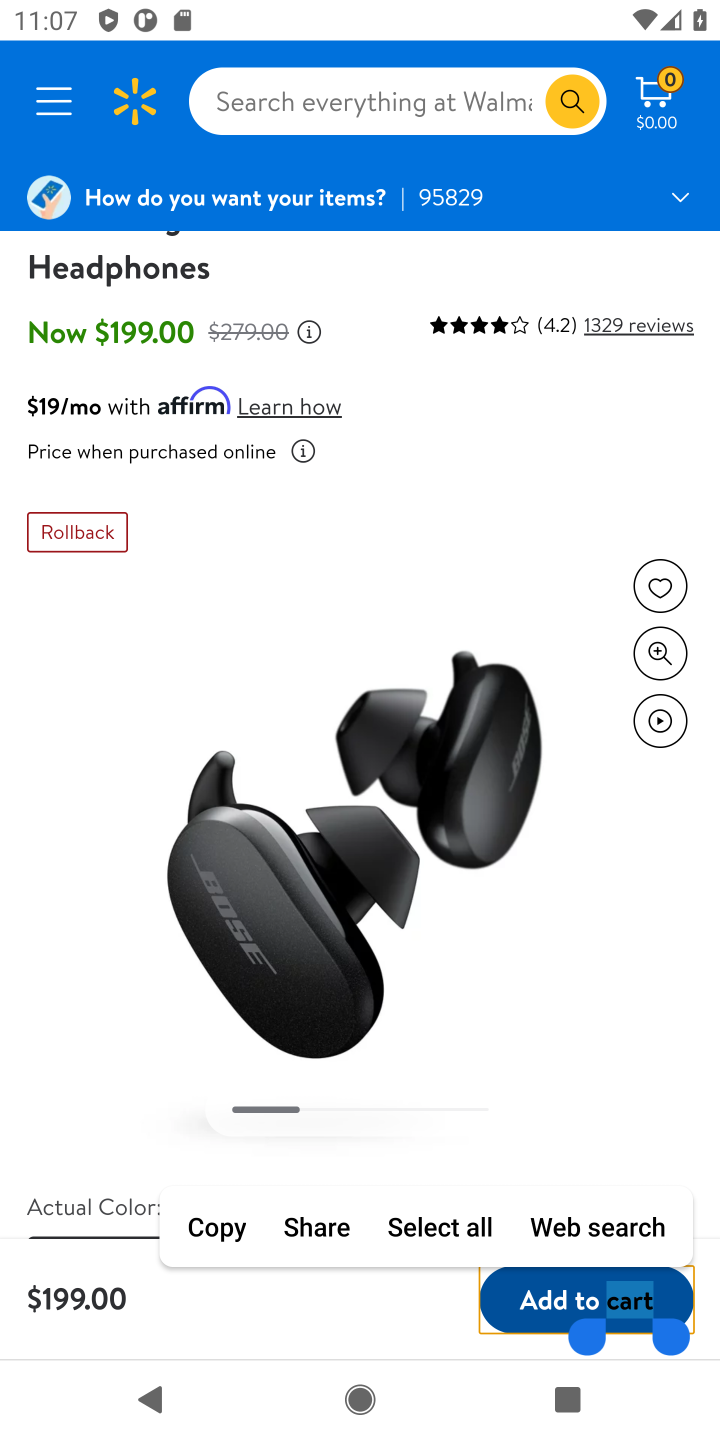
Step 31: click (570, 1308)
Your task to perform on an android device: Clear all items from cart on walmart.com. Add "bose quietcomfort 35" to the cart on walmart.com Image 32: 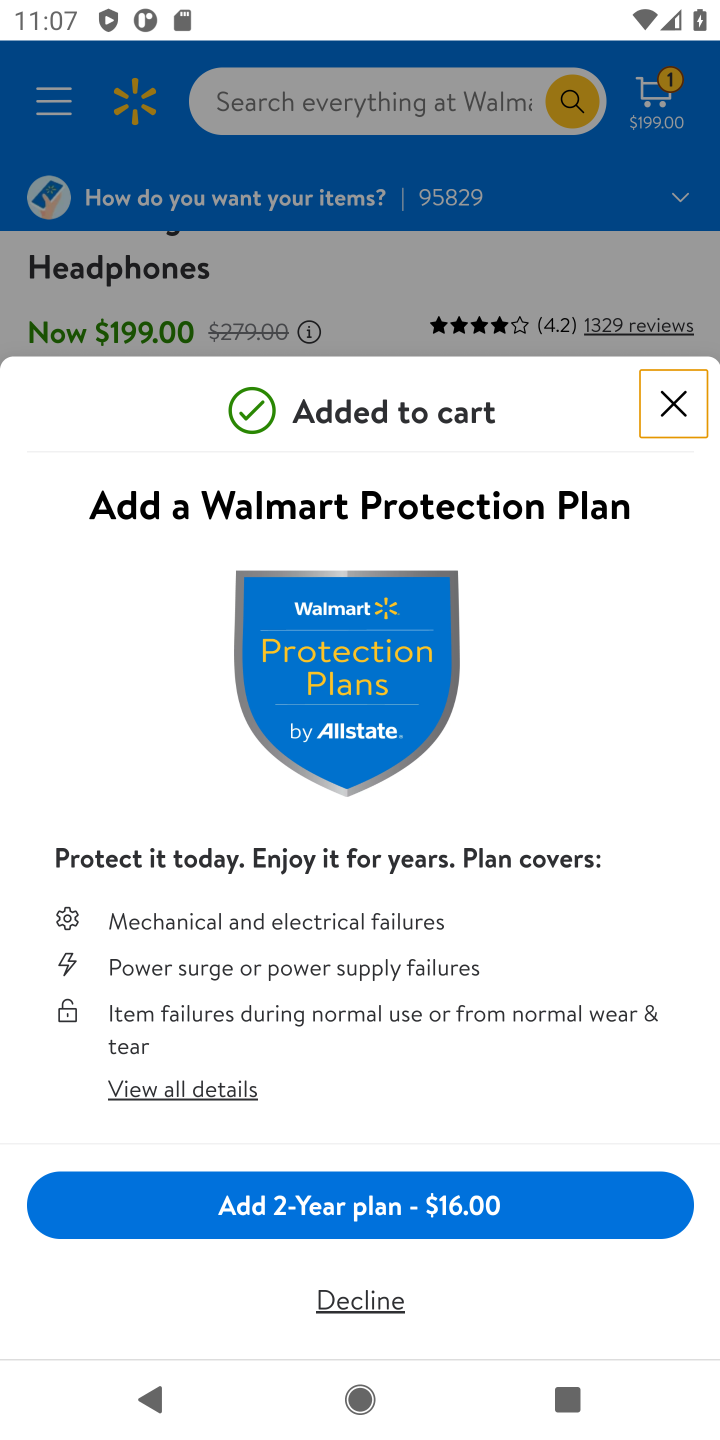
Step 32: click (403, 1300)
Your task to perform on an android device: Clear all items from cart on walmart.com. Add "bose quietcomfort 35" to the cart on walmart.com Image 33: 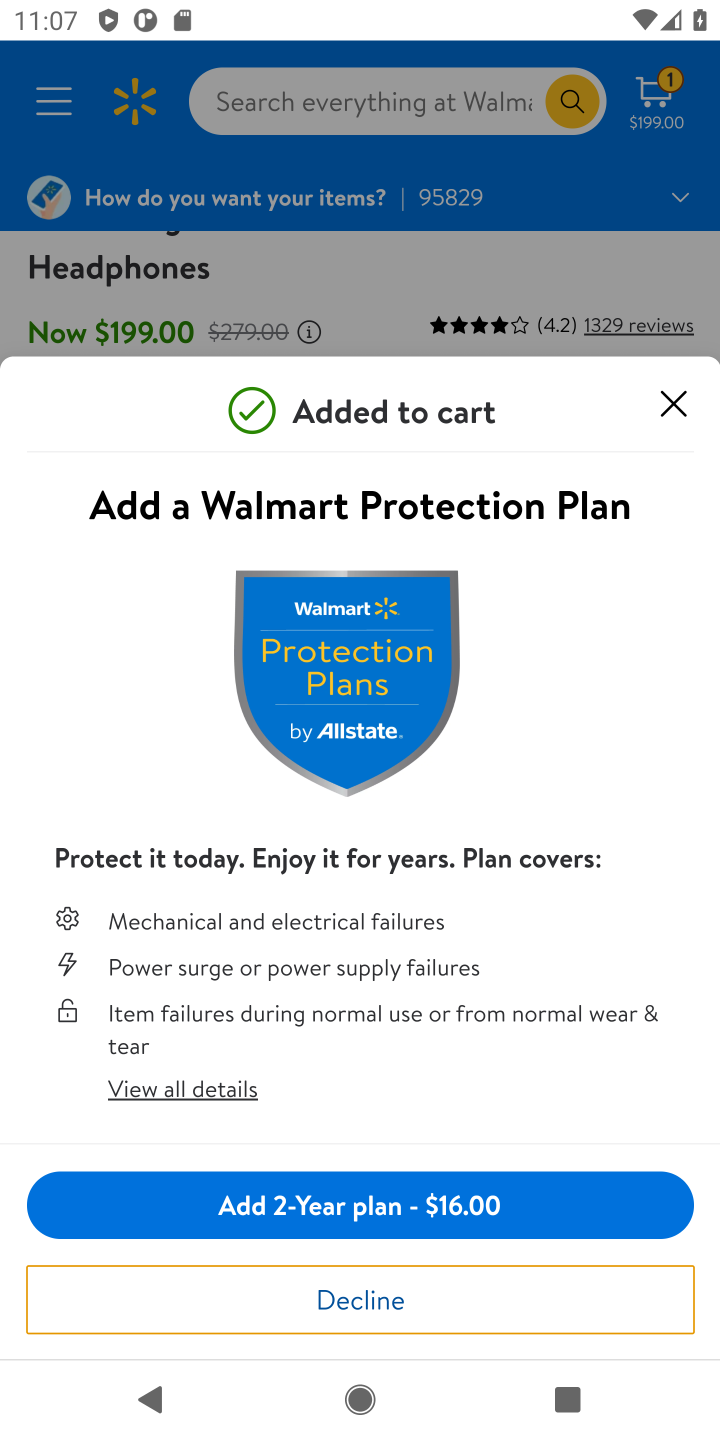
Step 33: click (682, 395)
Your task to perform on an android device: Clear all items from cart on walmart.com. Add "bose quietcomfort 35" to the cart on walmart.com Image 34: 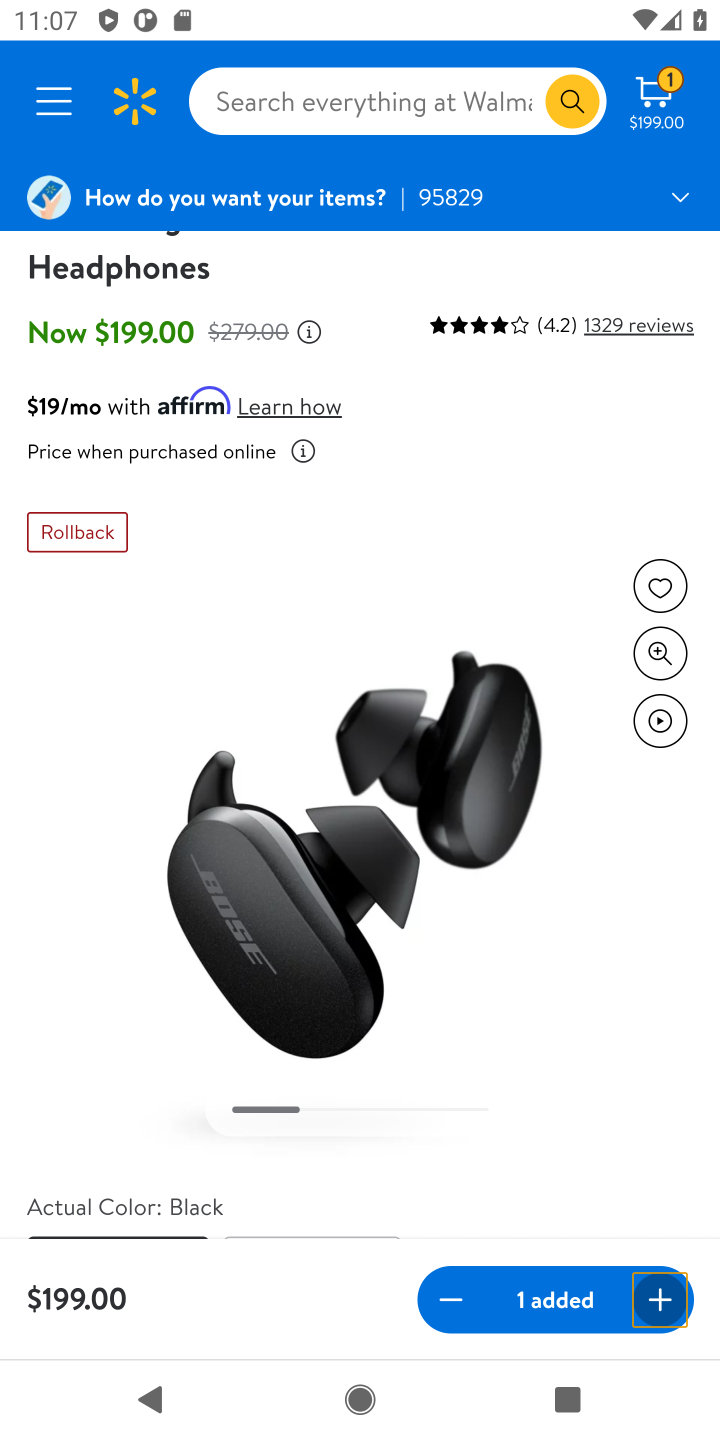
Step 34: task complete